Your task to perform on an android device: open app "Messenger Lite" Image 0: 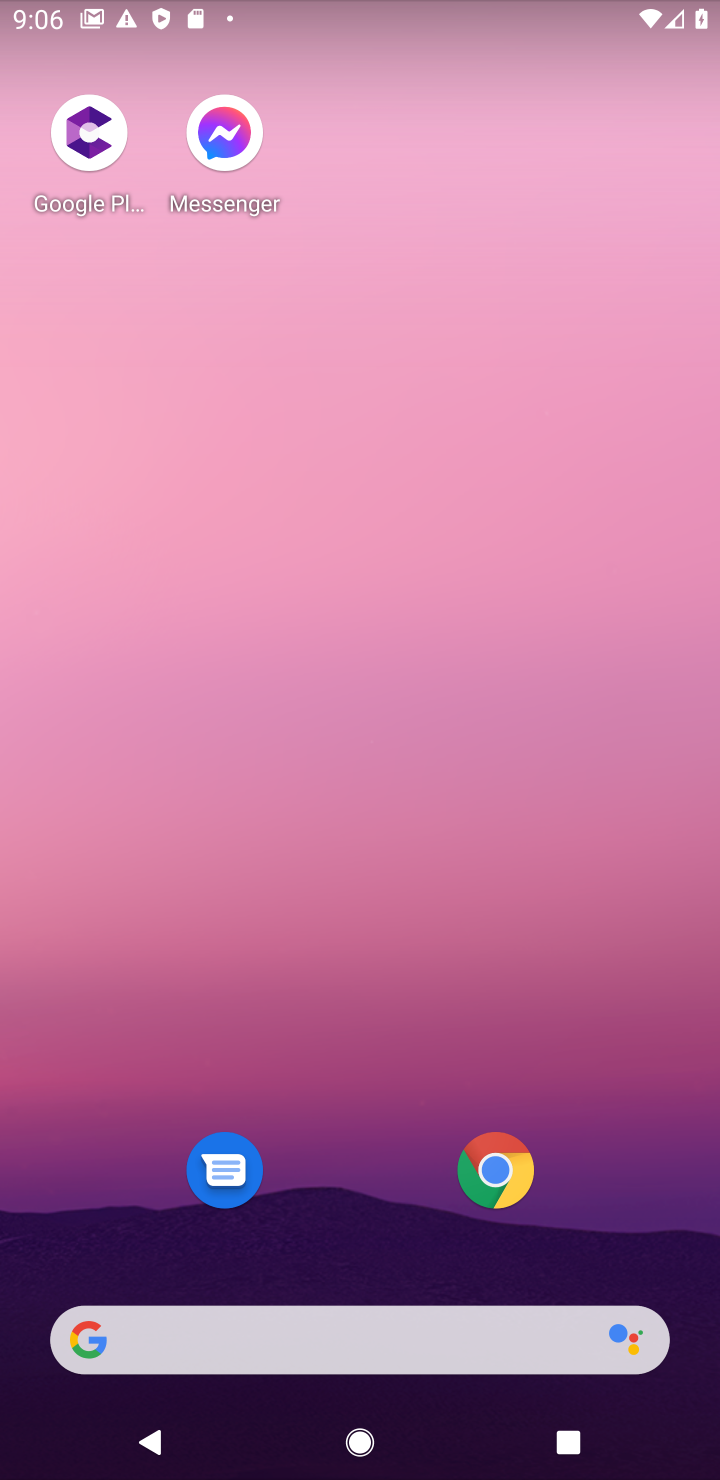
Step 0: click (372, 604)
Your task to perform on an android device: open app "Messenger Lite" Image 1: 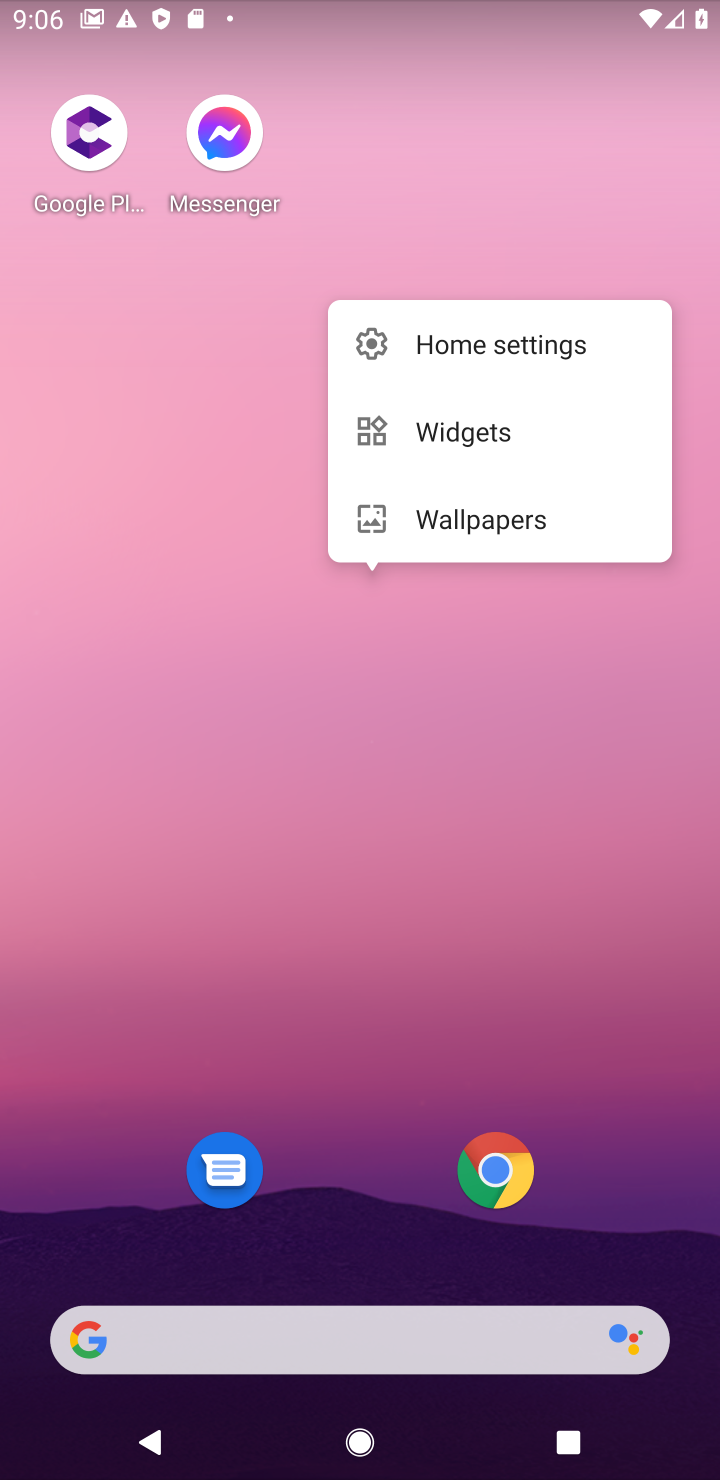
Step 1: drag from (287, 372) to (214, 128)
Your task to perform on an android device: open app "Messenger Lite" Image 2: 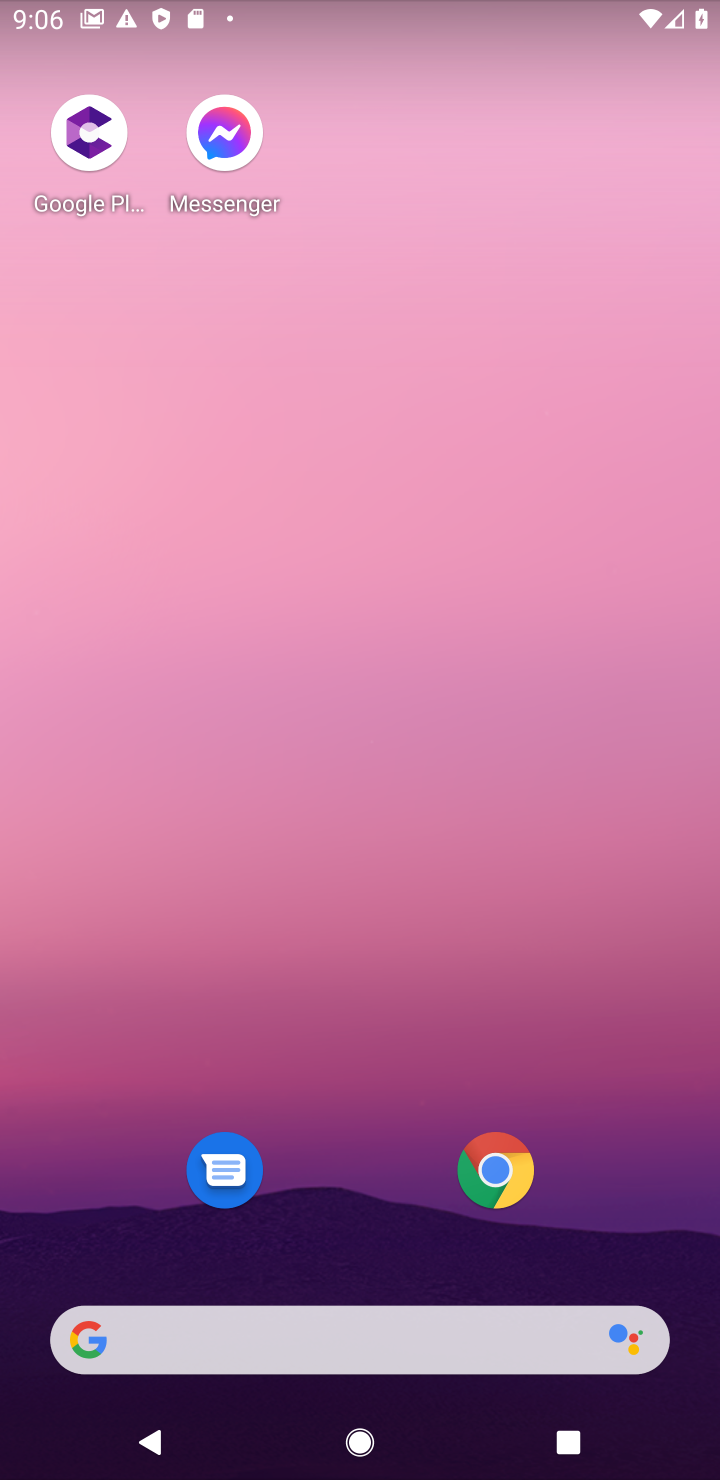
Step 2: drag from (199, 0) to (282, 272)
Your task to perform on an android device: open app "Messenger Lite" Image 3: 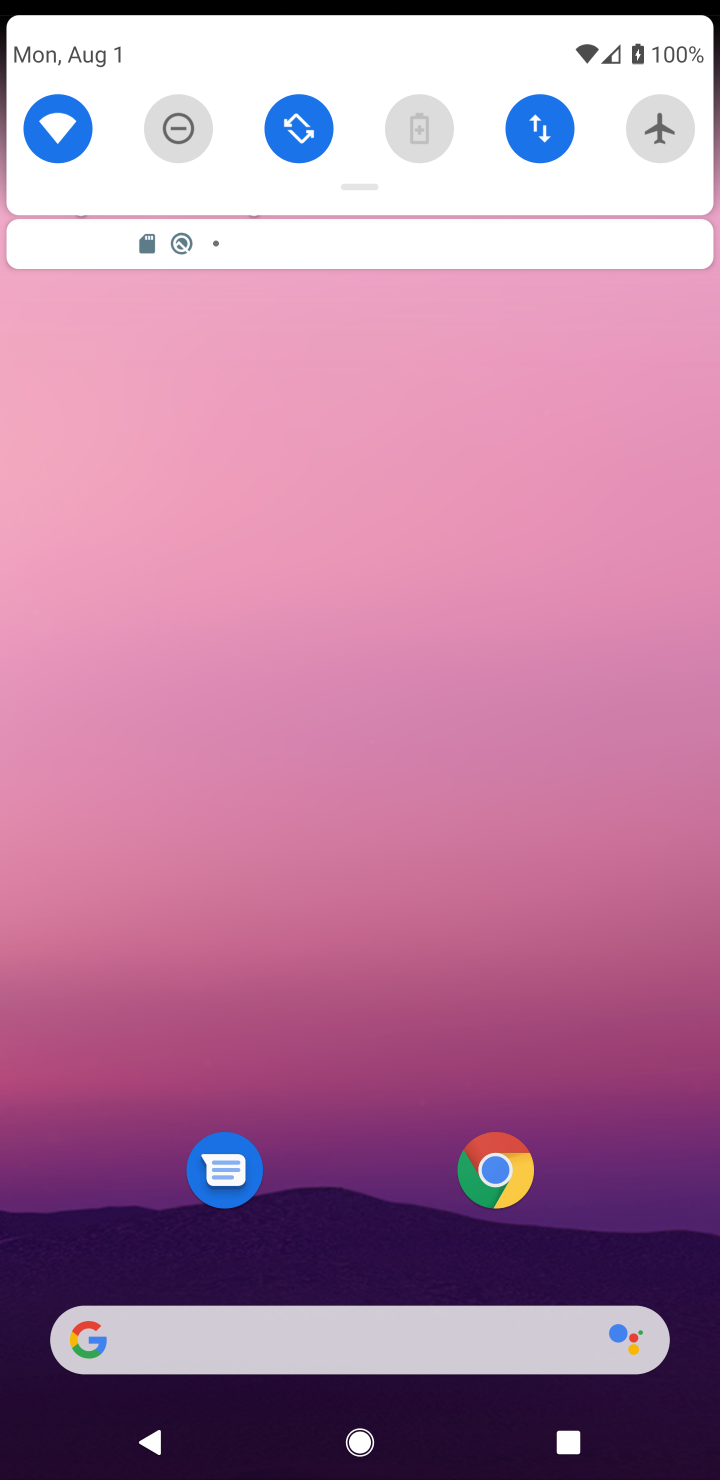
Step 3: drag from (359, 544) to (256, 475)
Your task to perform on an android device: open app "Messenger Lite" Image 4: 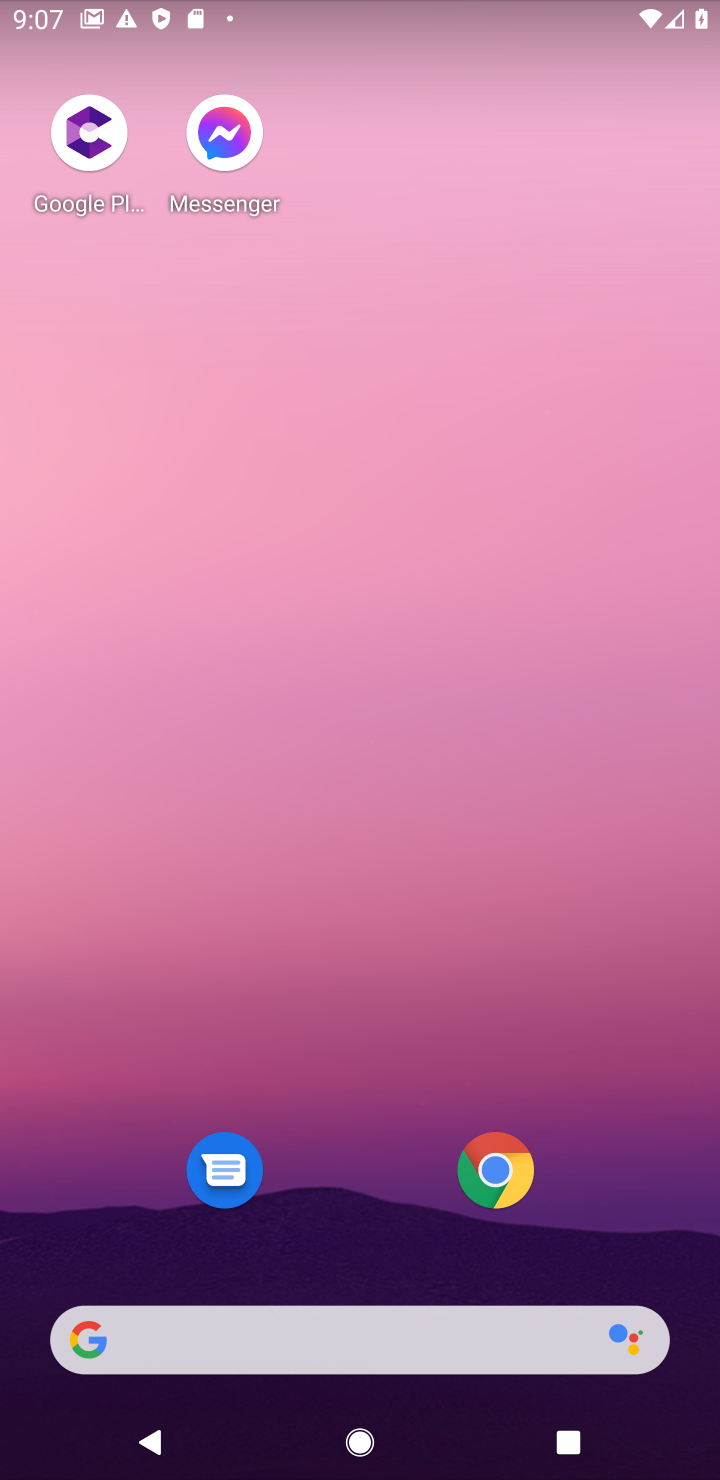
Step 4: drag from (314, 732) to (240, 215)
Your task to perform on an android device: open app "Messenger Lite" Image 5: 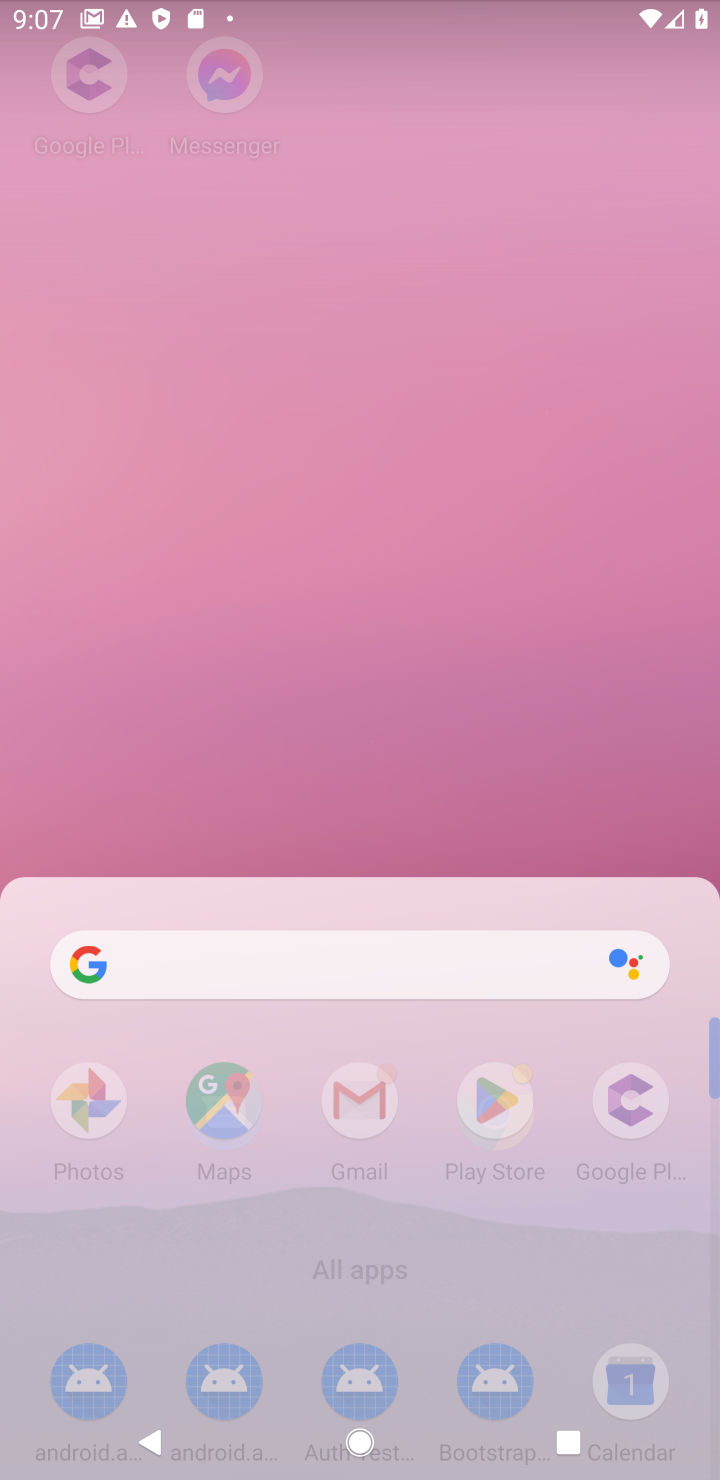
Step 5: drag from (207, 922) to (118, 307)
Your task to perform on an android device: open app "Messenger Lite" Image 6: 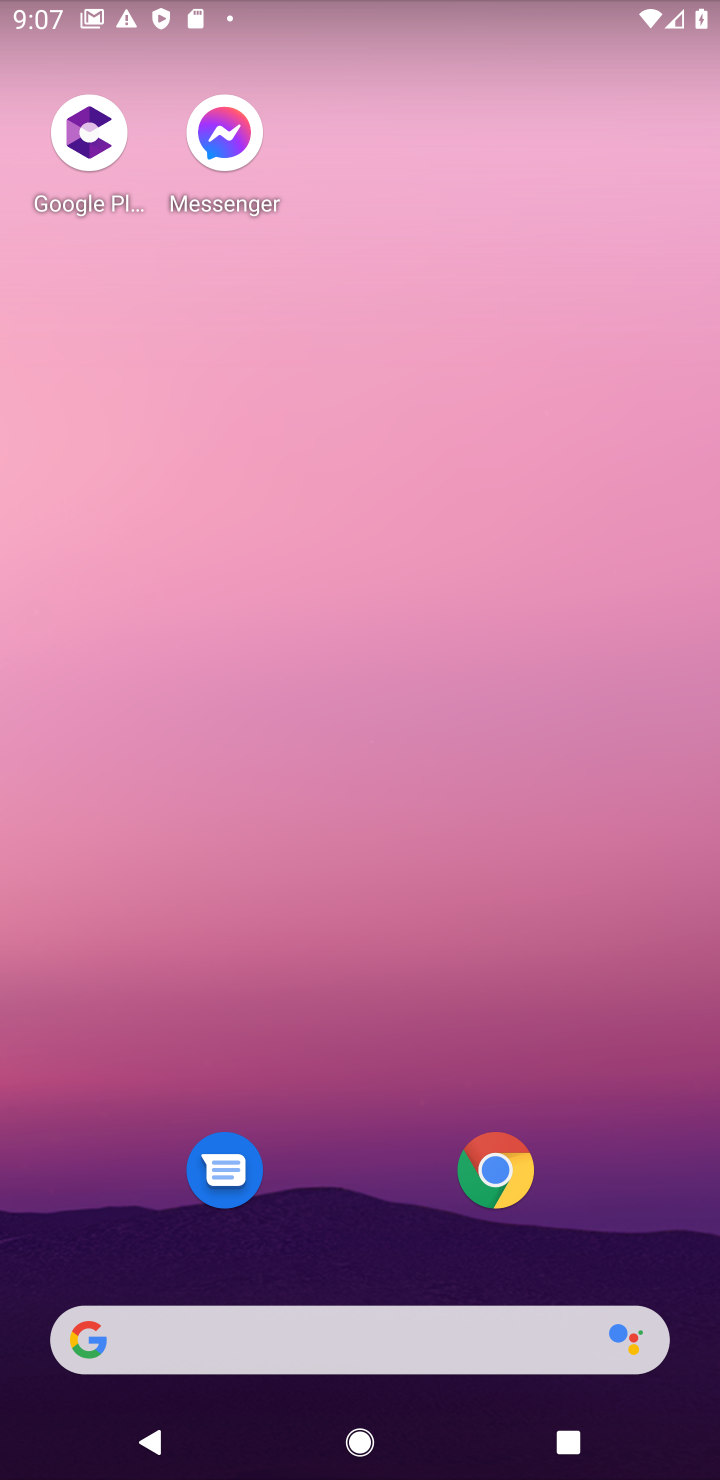
Step 6: drag from (165, 527) to (271, 136)
Your task to perform on an android device: open app "Messenger Lite" Image 7: 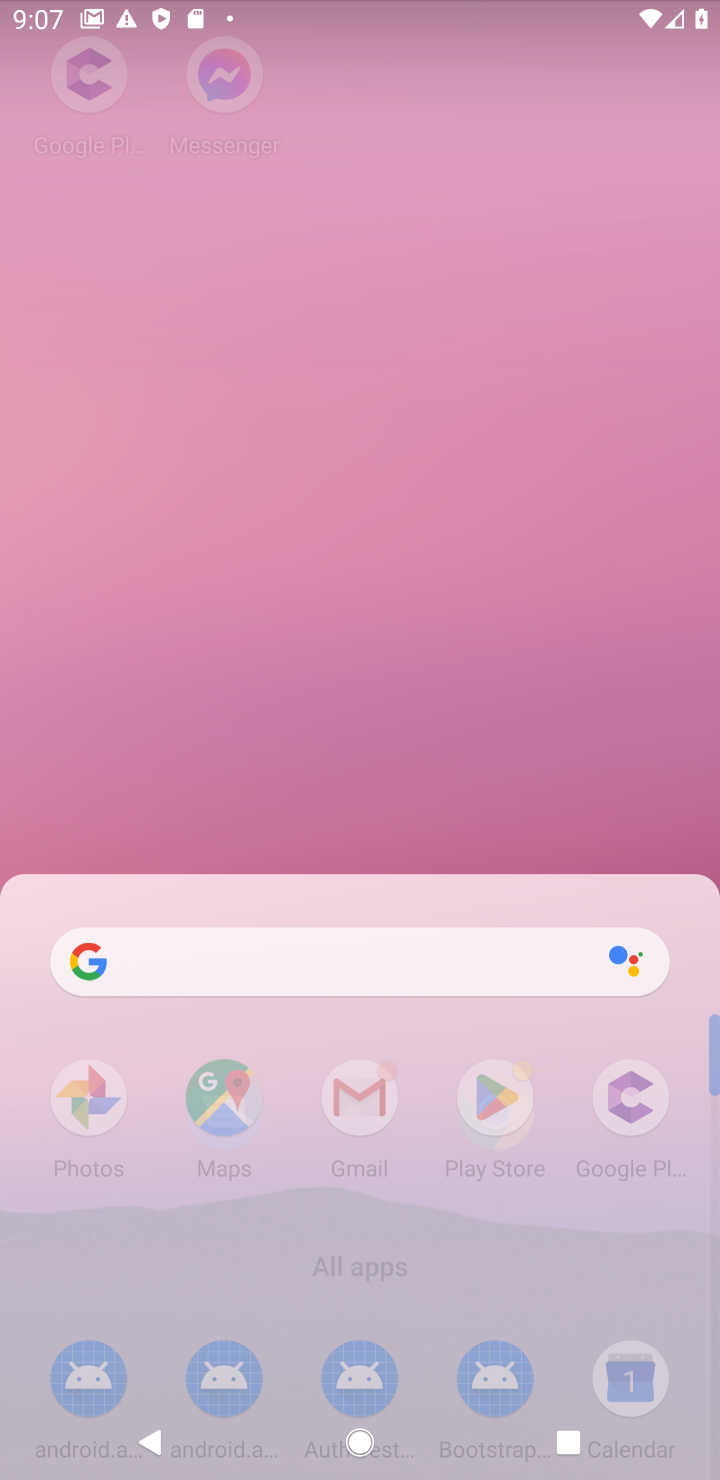
Step 7: click (230, 406)
Your task to perform on an android device: open app "Messenger Lite" Image 8: 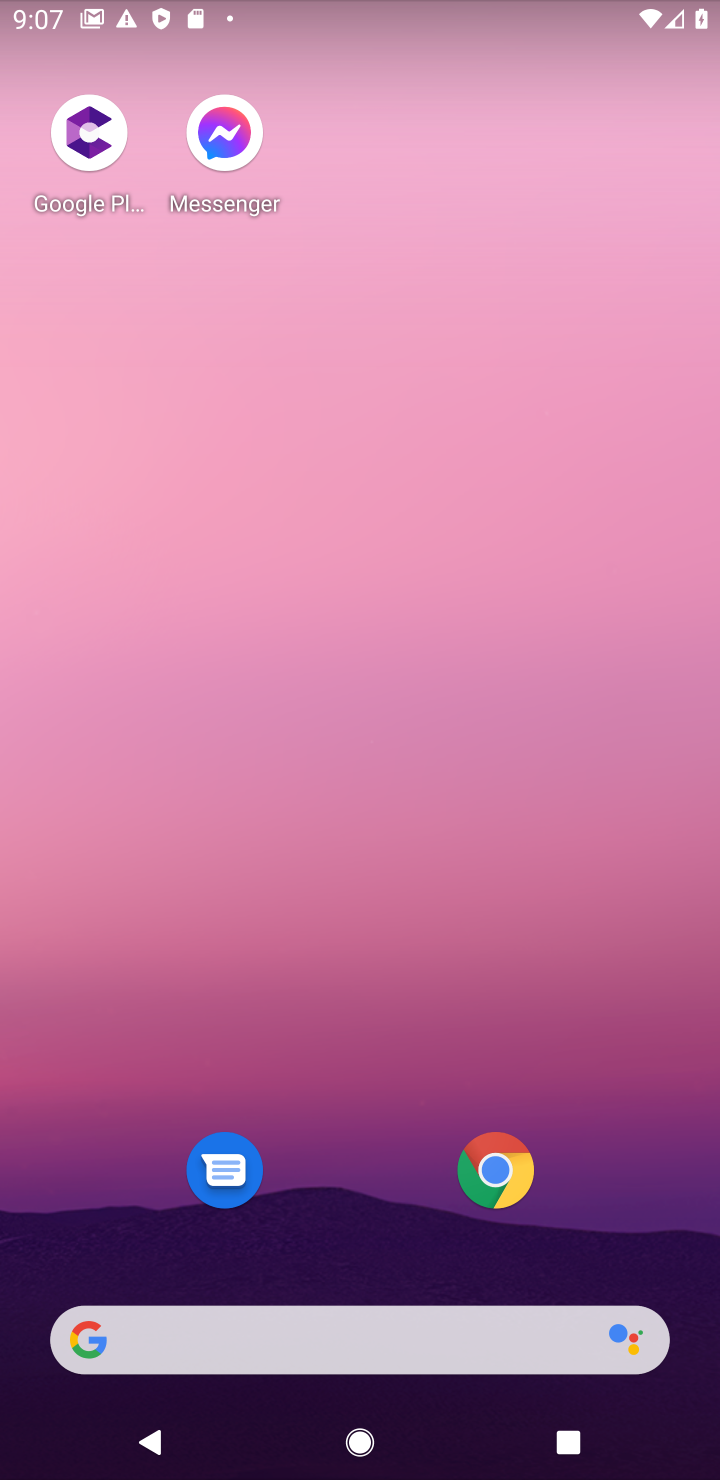
Step 8: click (255, 439)
Your task to perform on an android device: open app "Messenger Lite" Image 9: 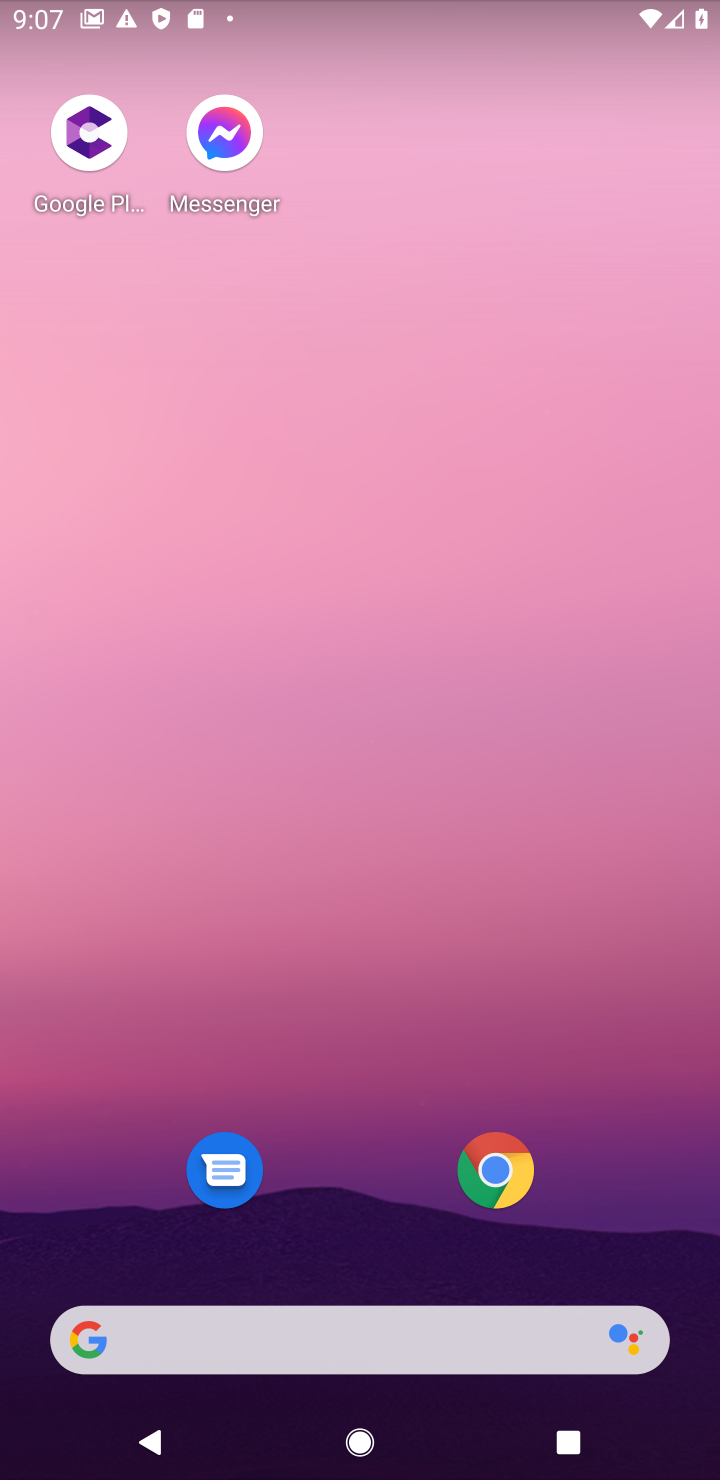
Step 9: click (278, 368)
Your task to perform on an android device: open app "Messenger Lite" Image 10: 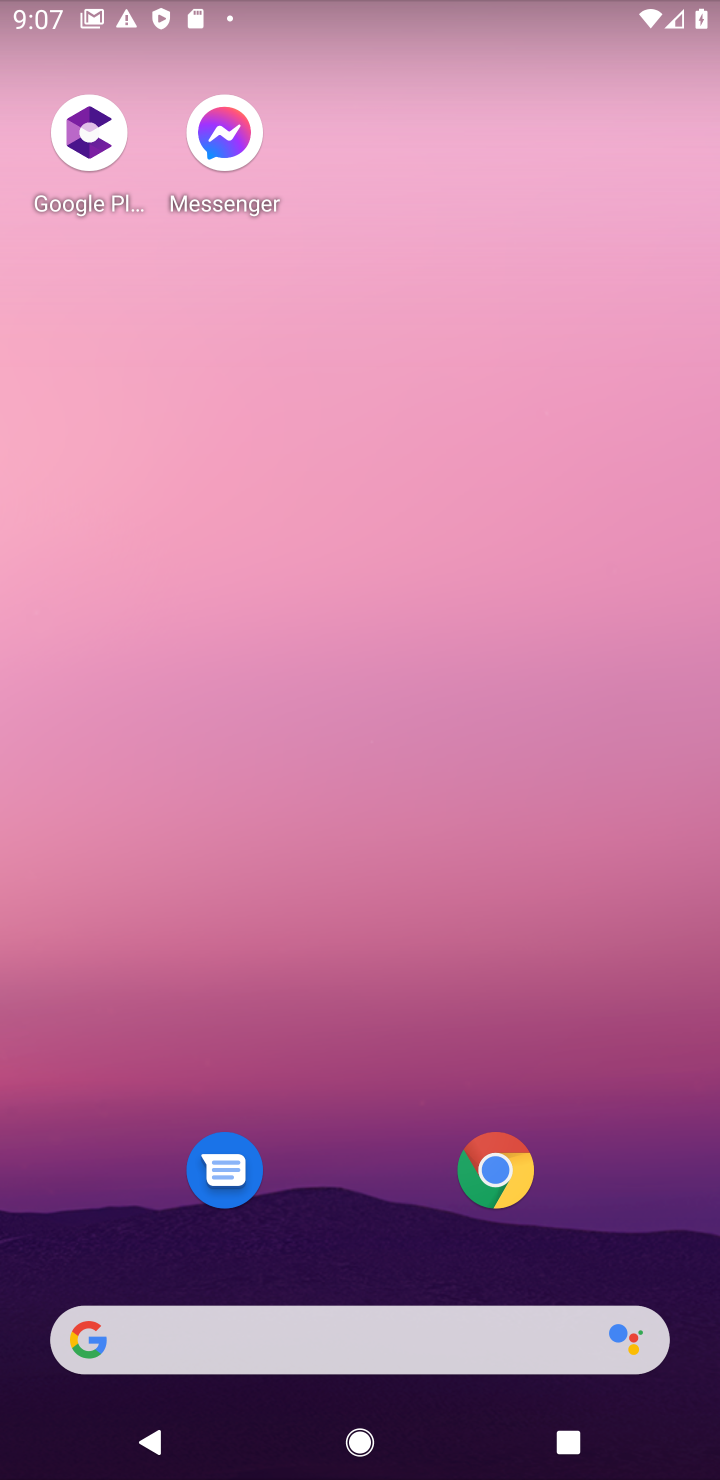
Step 10: drag from (397, 615) to (304, 209)
Your task to perform on an android device: open app "Messenger Lite" Image 11: 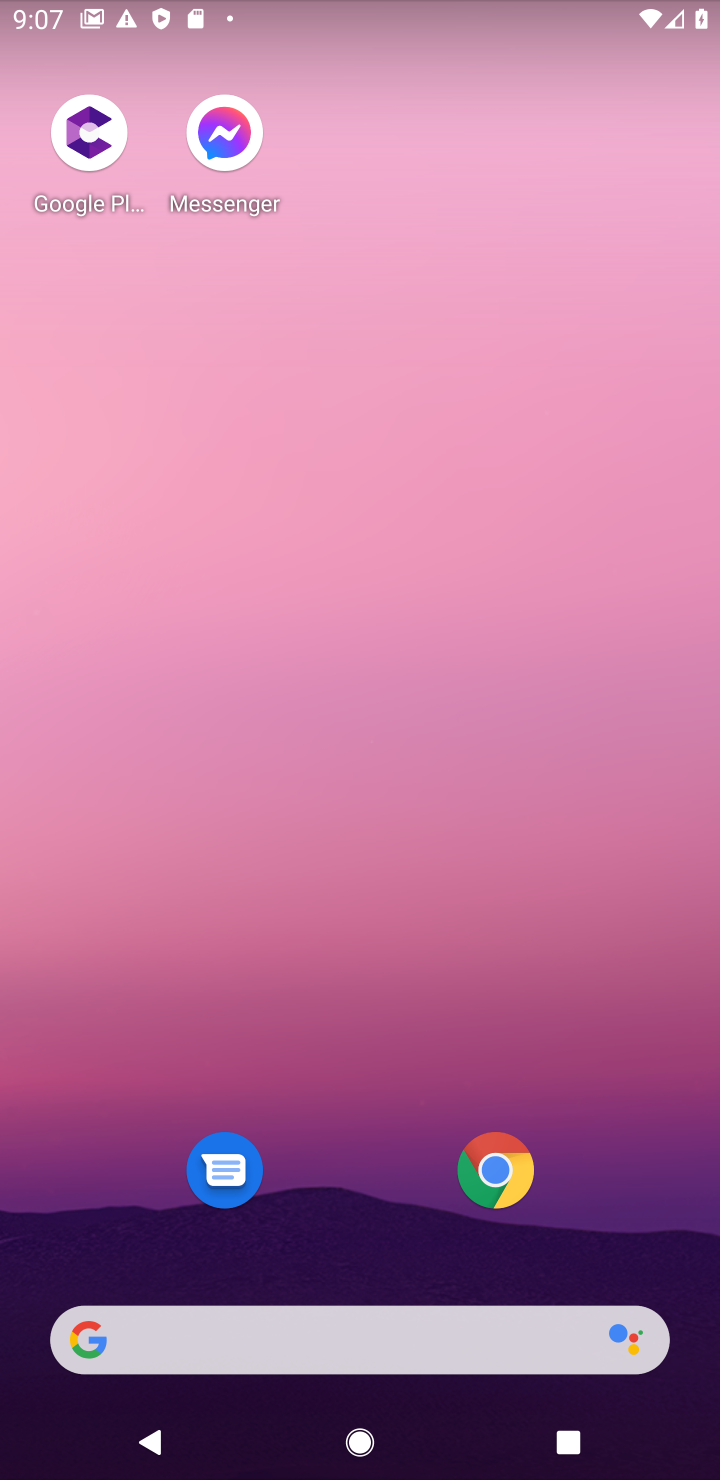
Step 11: drag from (342, 858) to (148, 108)
Your task to perform on an android device: open app "Messenger Lite" Image 12: 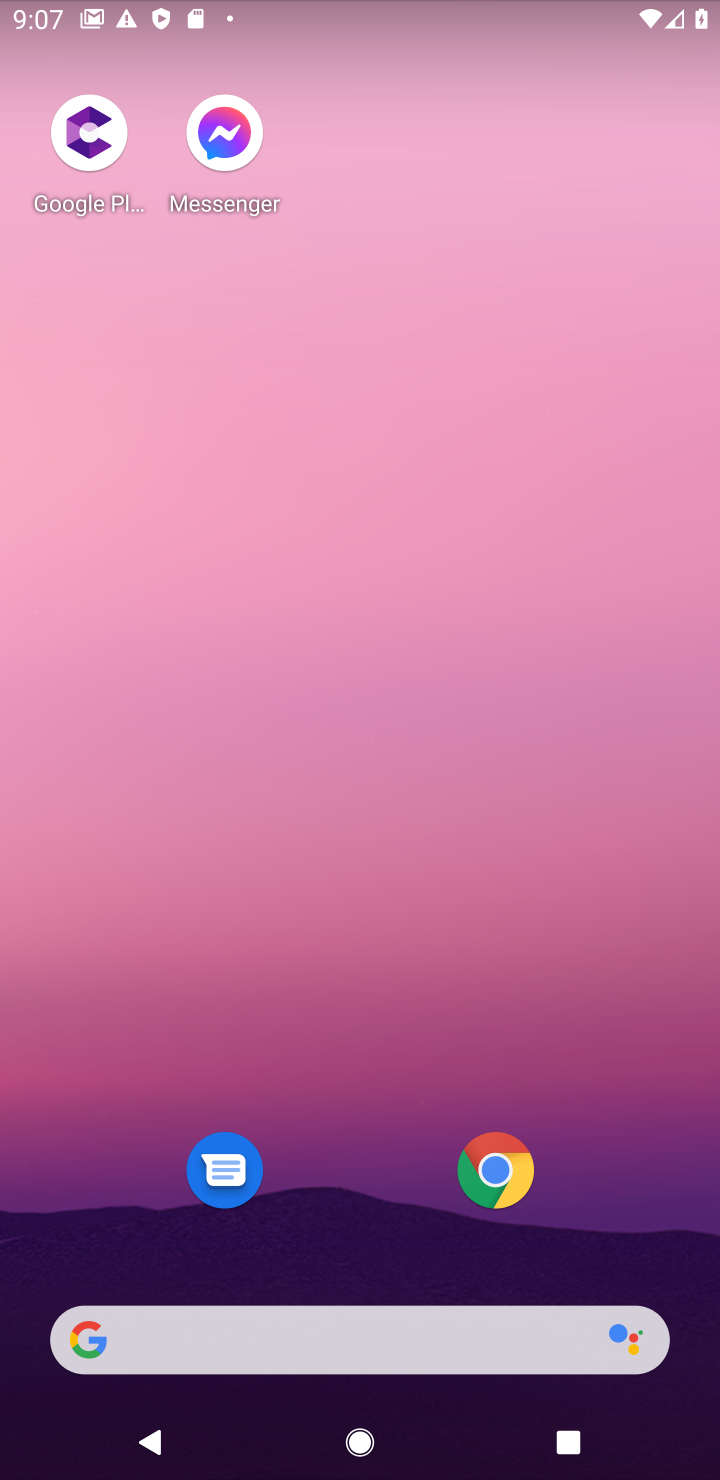
Step 12: drag from (347, 1079) to (204, 31)
Your task to perform on an android device: open app "Messenger Lite" Image 13: 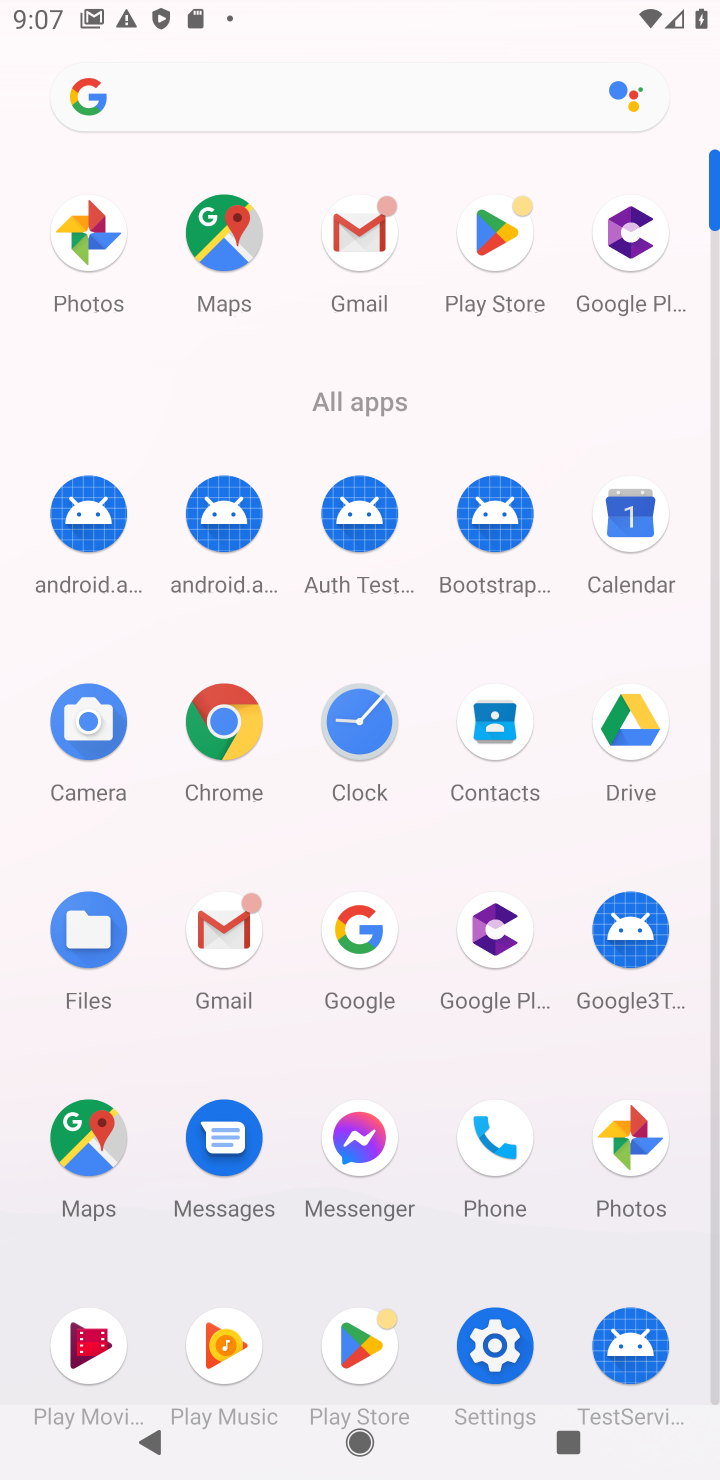
Step 13: click (501, 216)
Your task to perform on an android device: open app "Messenger Lite" Image 14: 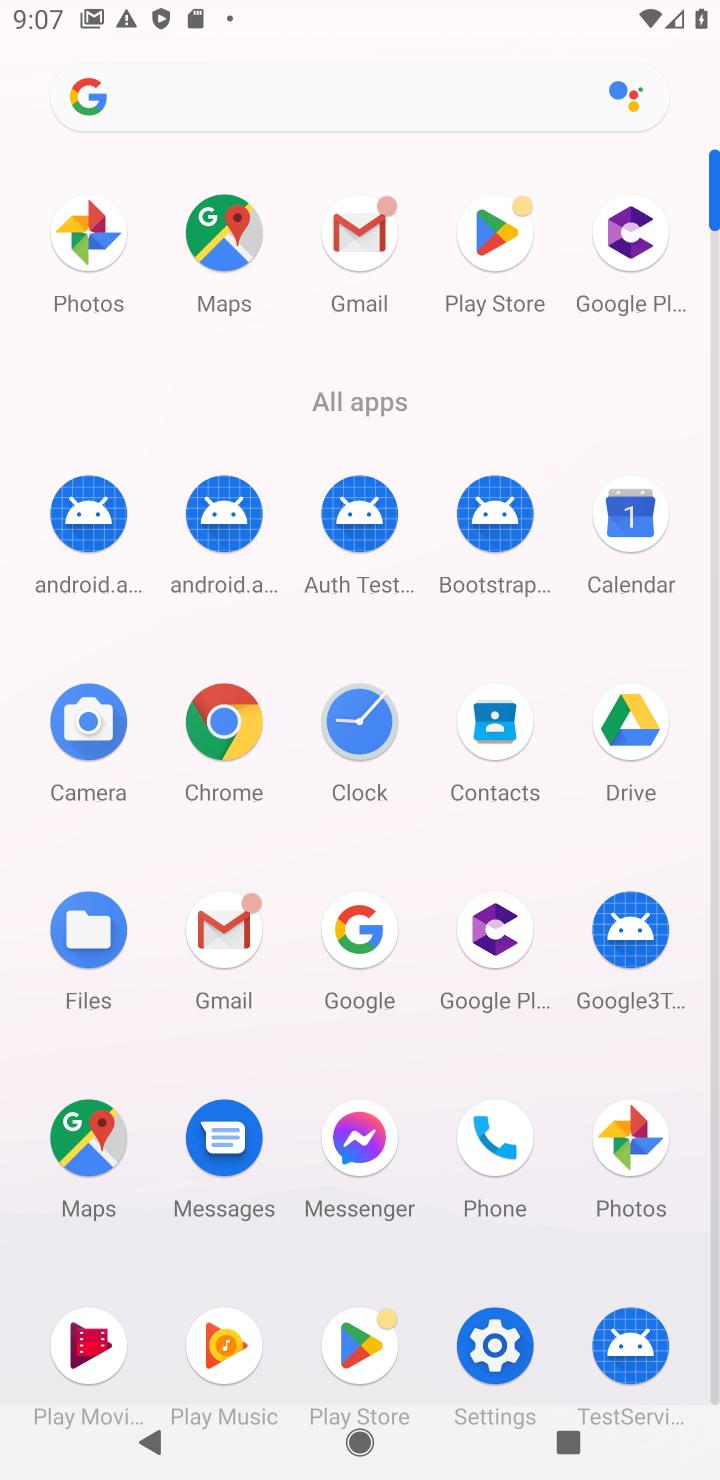
Step 14: click (500, 226)
Your task to perform on an android device: open app "Messenger Lite" Image 15: 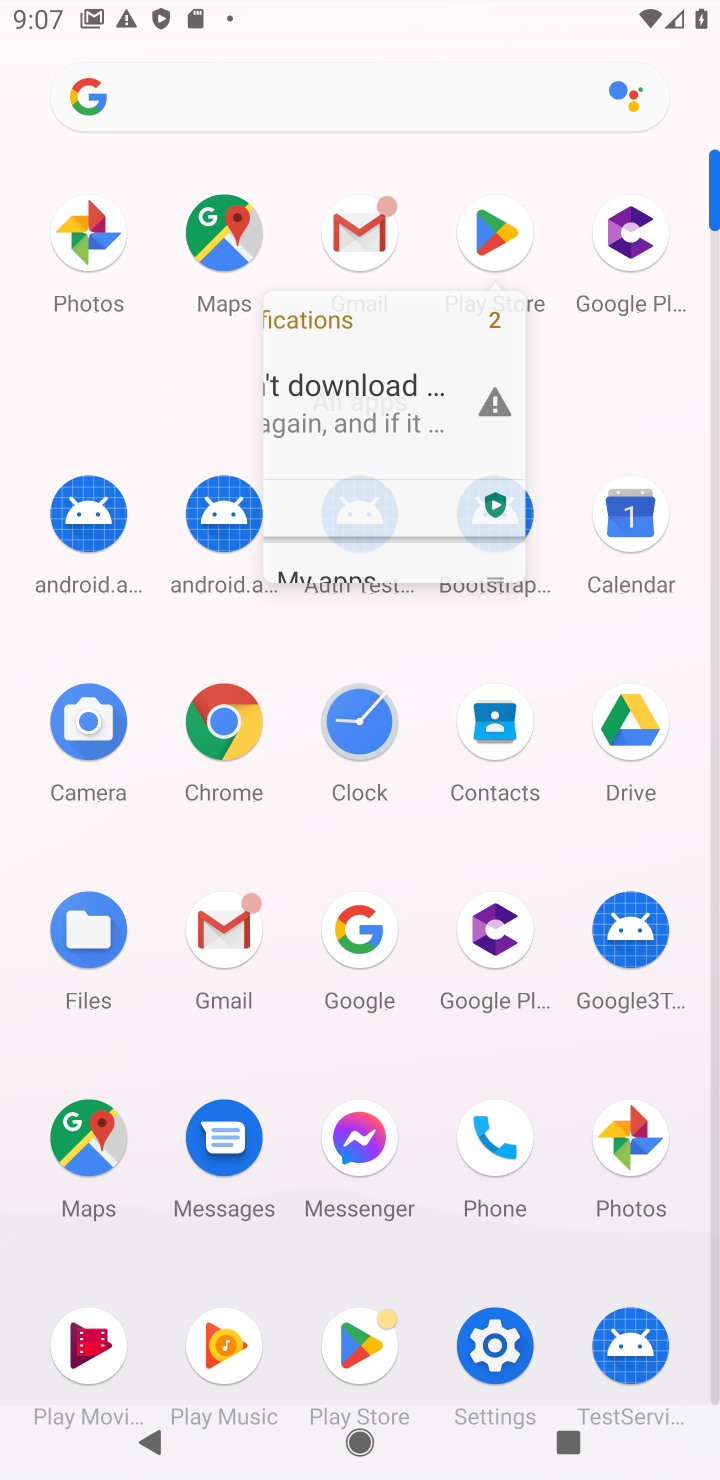
Step 15: click (504, 233)
Your task to perform on an android device: open app "Messenger Lite" Image 16: 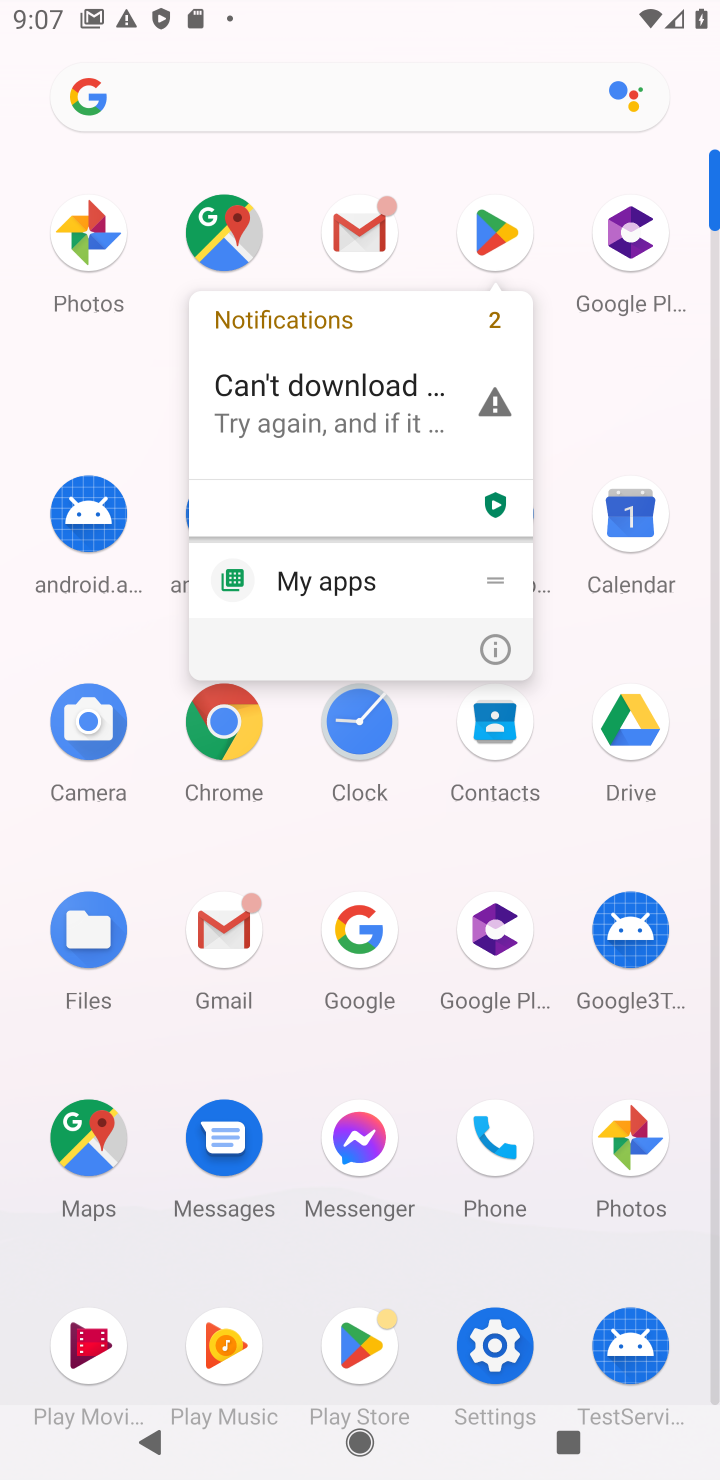
Step 16: click (504, 233)
Your task to perform on an android device: open app "Messenger Lite" Image 17: 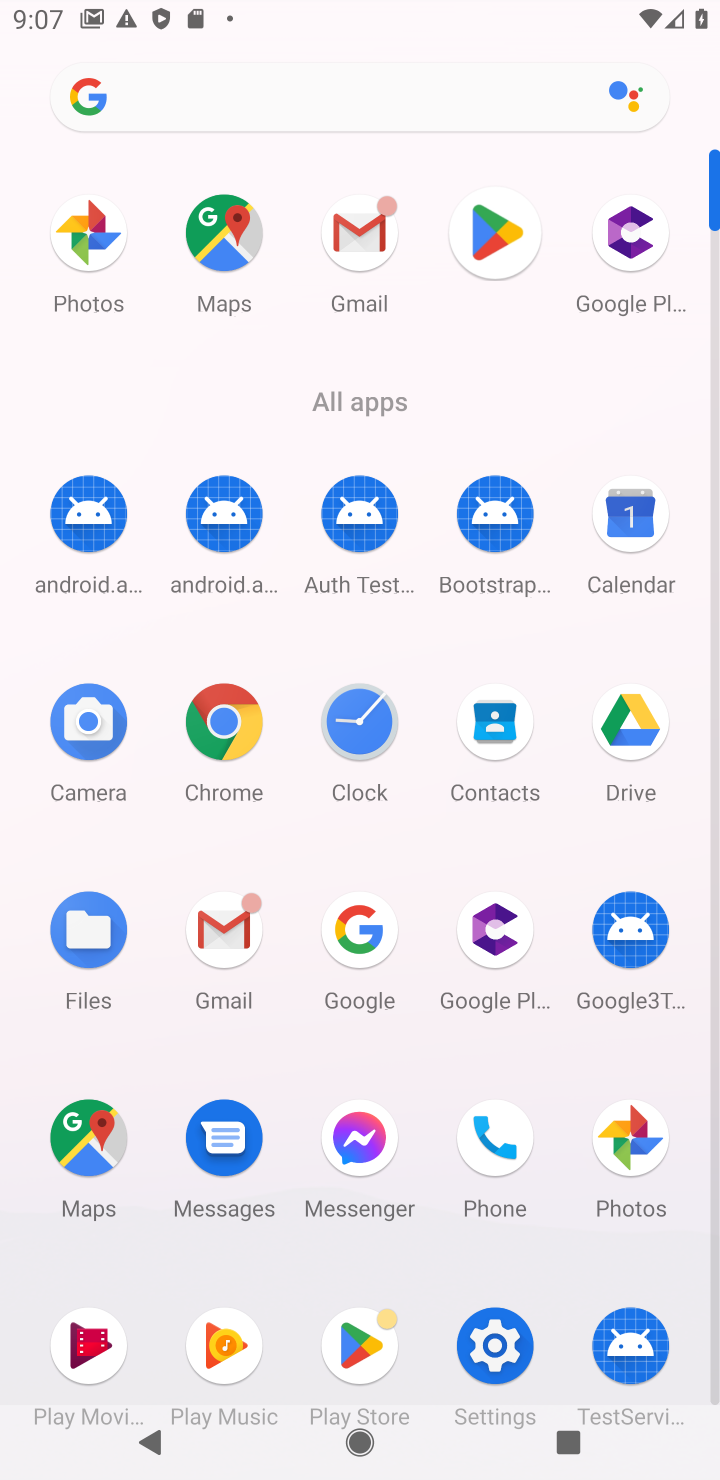
Step 17: click (504, 233)
Your task to perform on an android device: open app "Messenger Lite" Image 18: 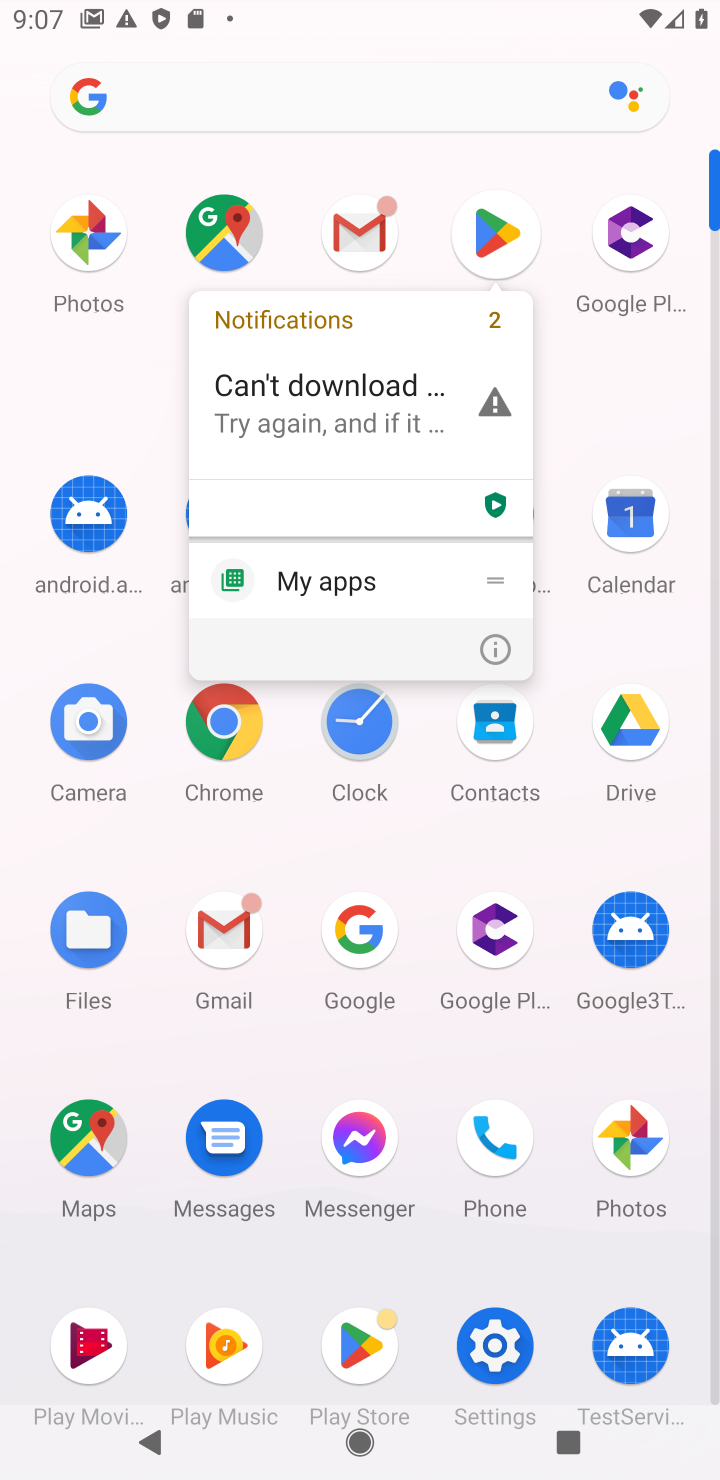
Step 18: click (518, 238)
Your task to perform on an android device: open app "Messenger Lite" Image 19: 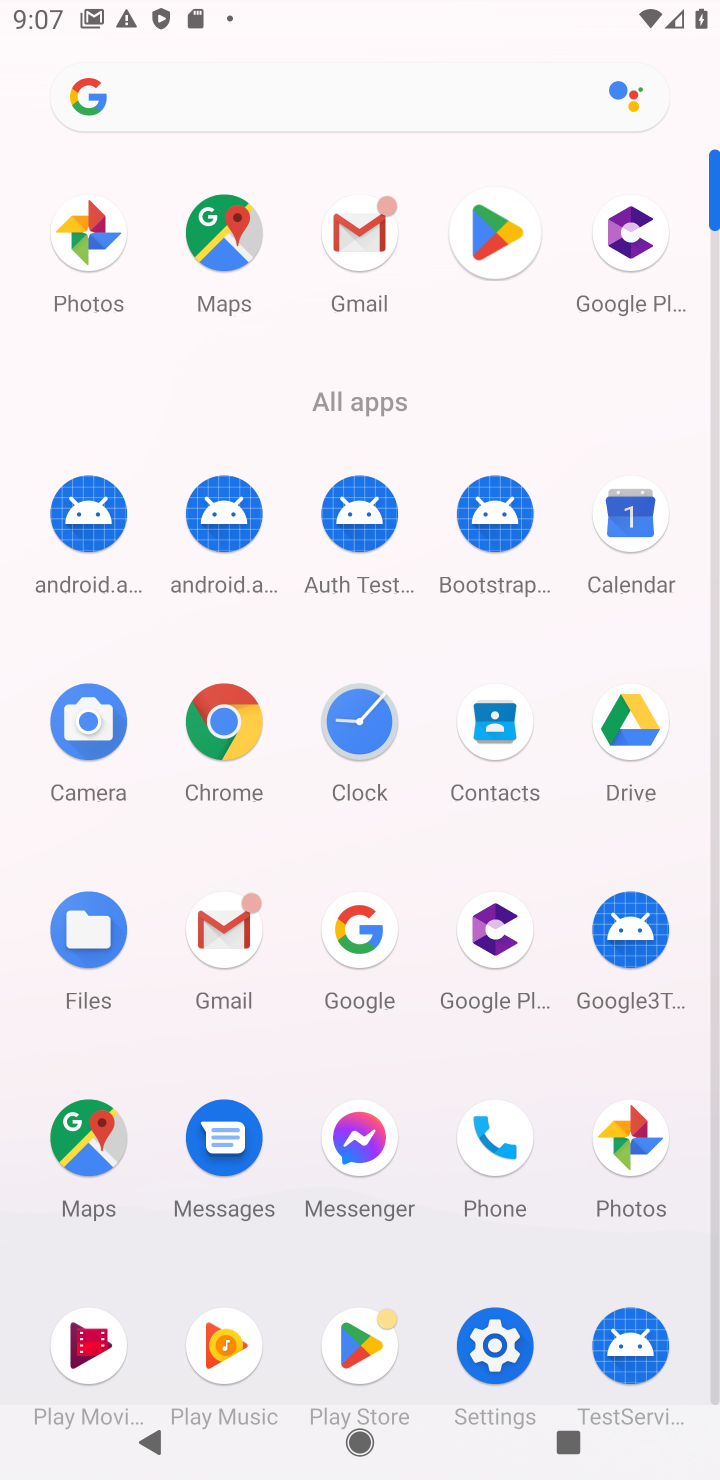
Step 19: click (500, 225)
Your task to perform on an android device: open app "Messenger Lite" Image 20: 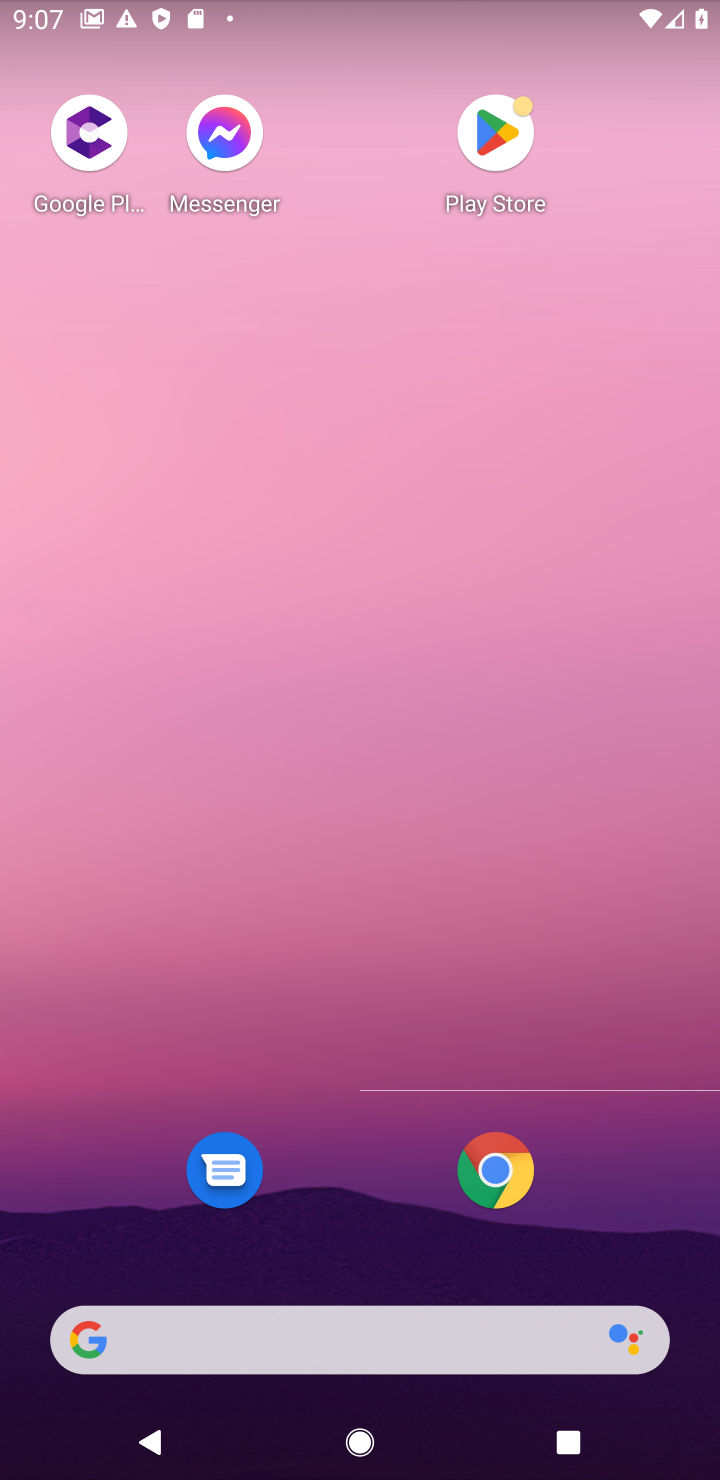
Step 20: click (476, 211)
Your task to perform on an android device: open app "Messenger Lite" Image 21: 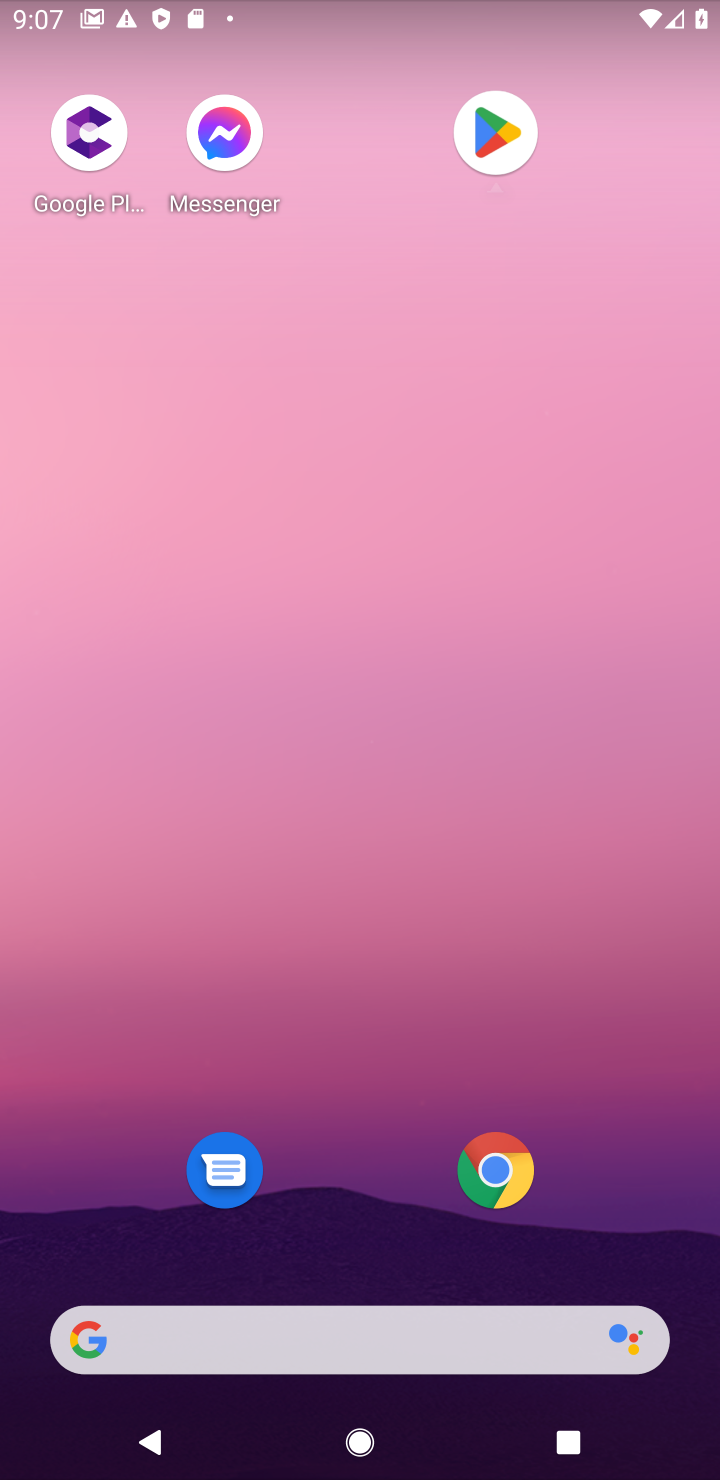
Step 21: click (489, 141)
Your task to perform on an android device: open app "Messenger Lite" Image 22: 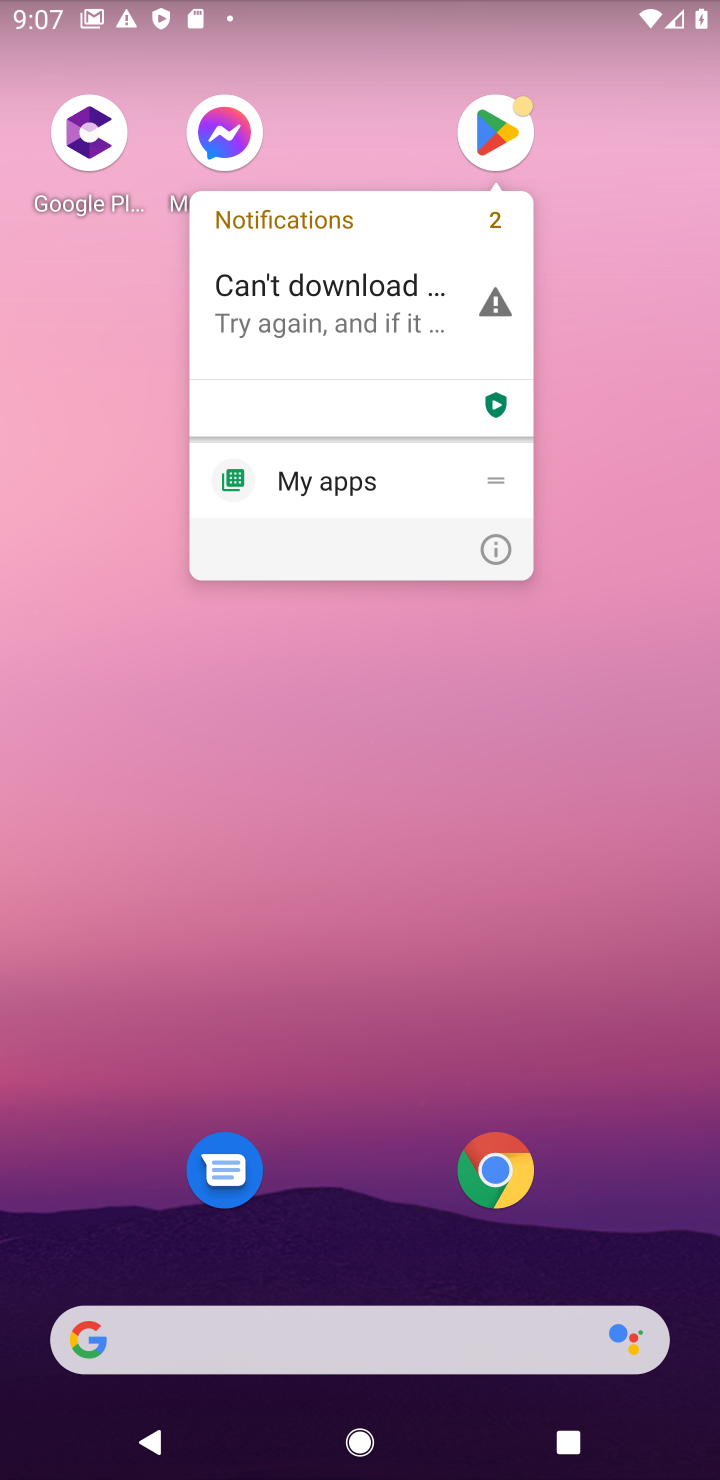
Step 22: click (494, 136)
Your task to perform on an android device: open app "Messenger Lite" Image 23: 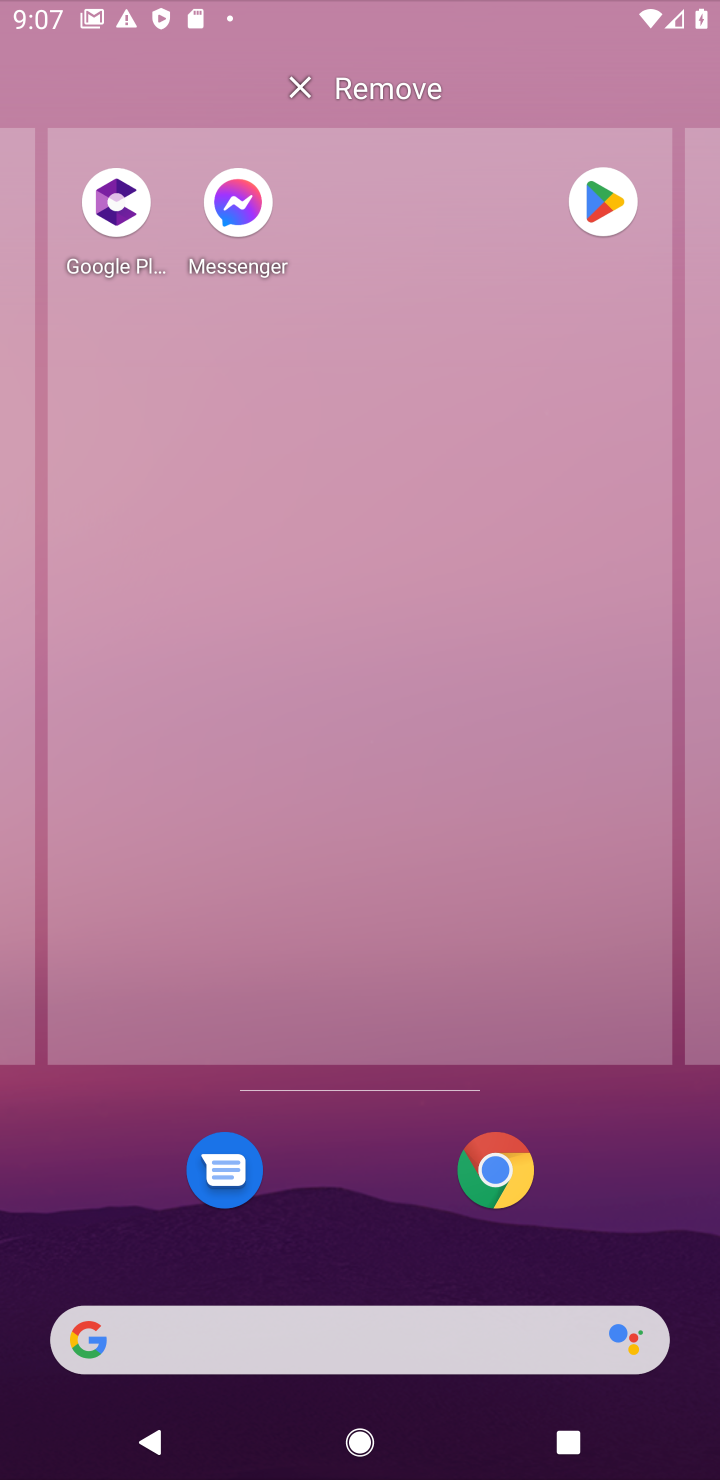
Step 23: drag from (460, 1146) to (357, 10)
Your task to perform on an android device: open app "Messenger Lite" Image 24: 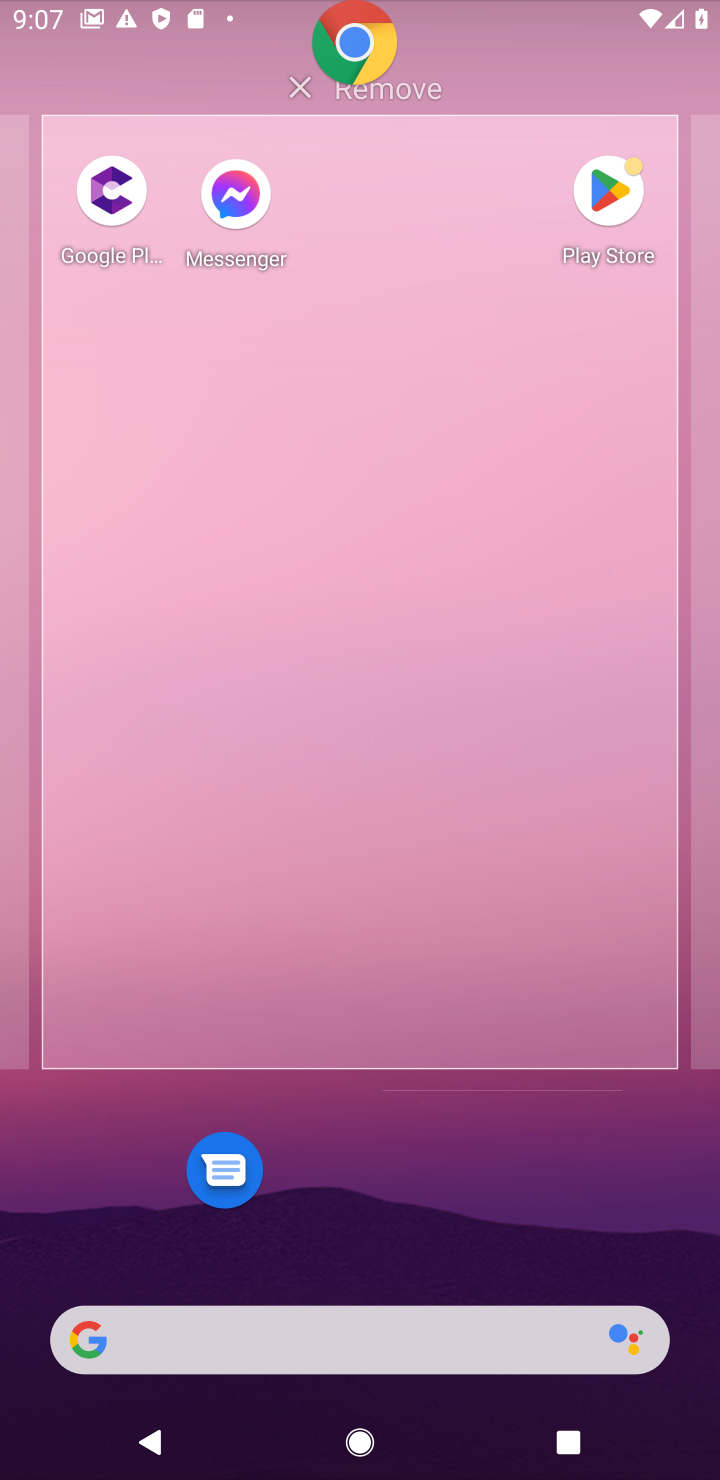
Step 24: drag from (272, 2) to (196, 24)
Your task to perform on an android device: open app "Messenger Lite" Image 25: 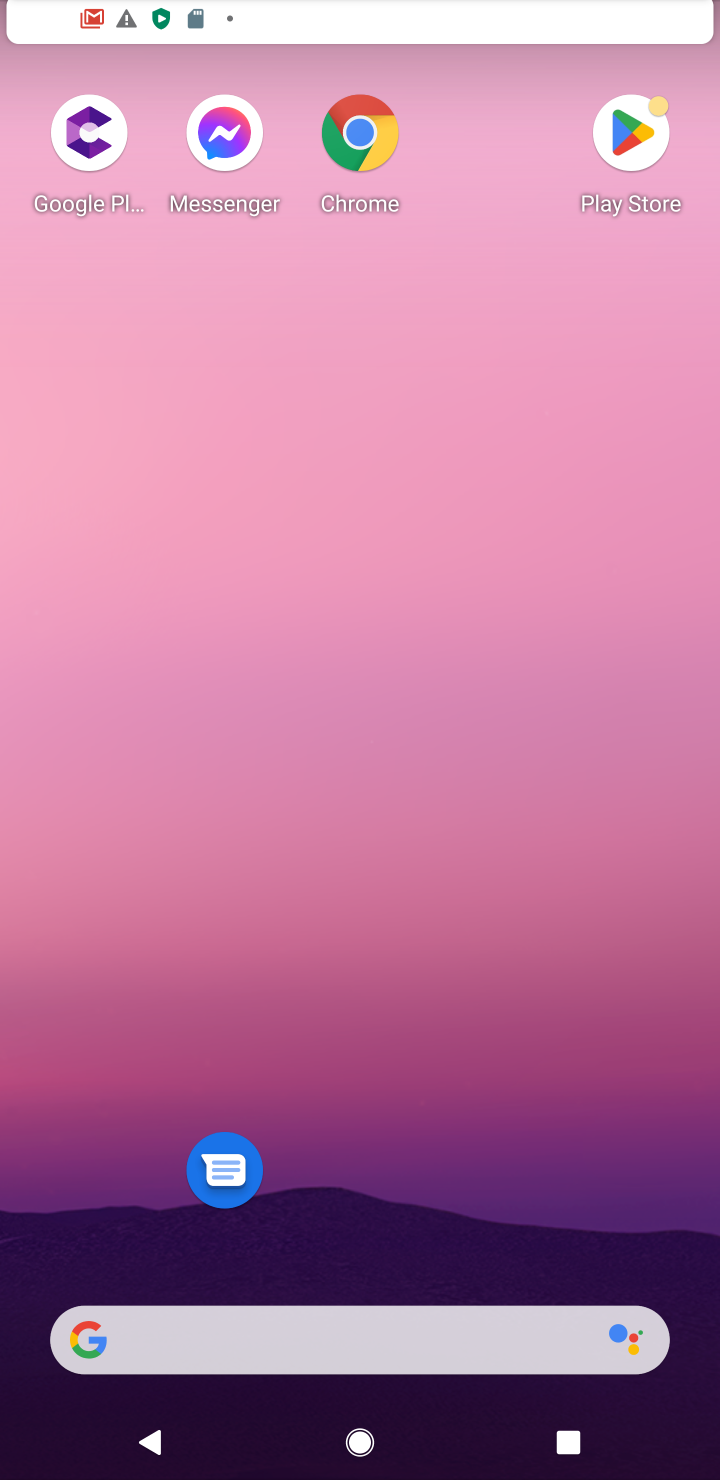
Step 25: drag from (461, 1215) to (266, 40)
Your task to perform on an android device: open app "Messenger Lite" Image 26: 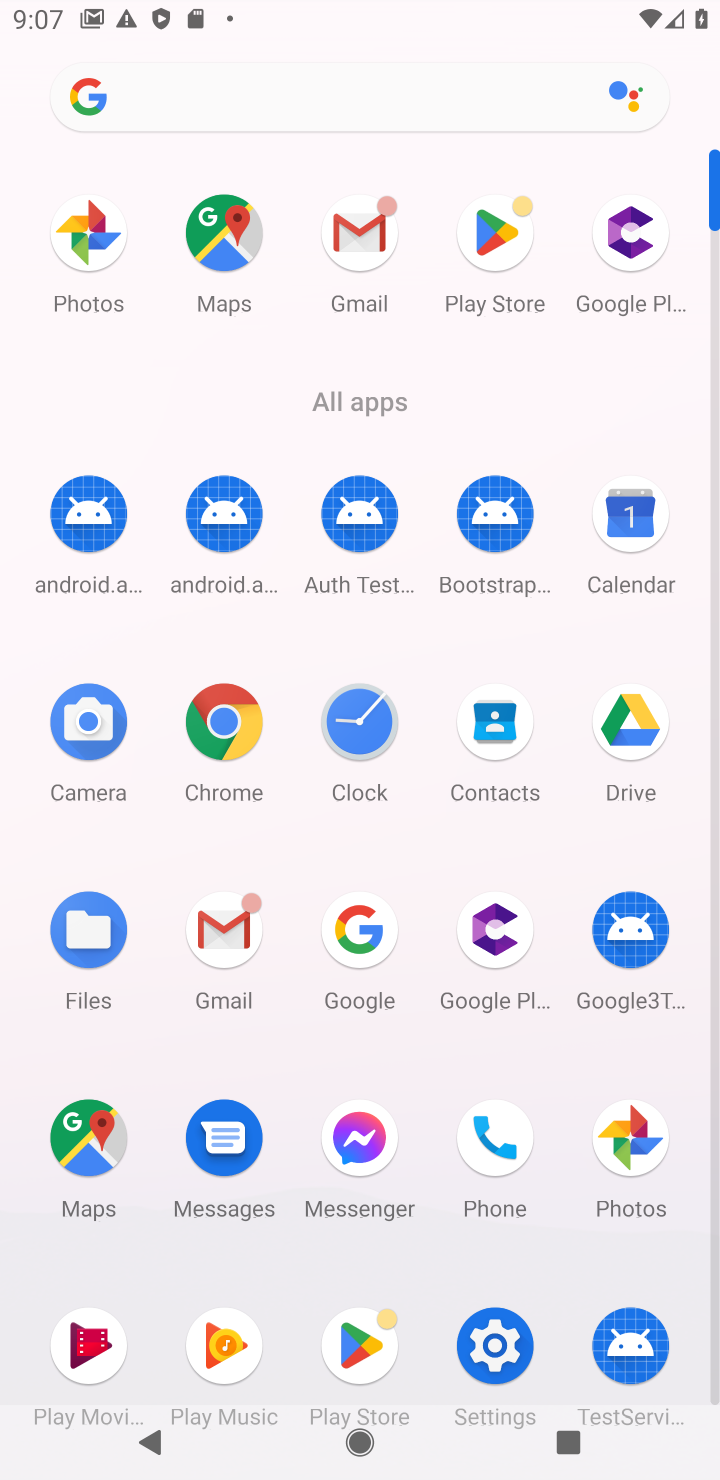
Step 26: click (496, 228)
Your task to perform on an android device: open app "Messenger Lite" Image 27: 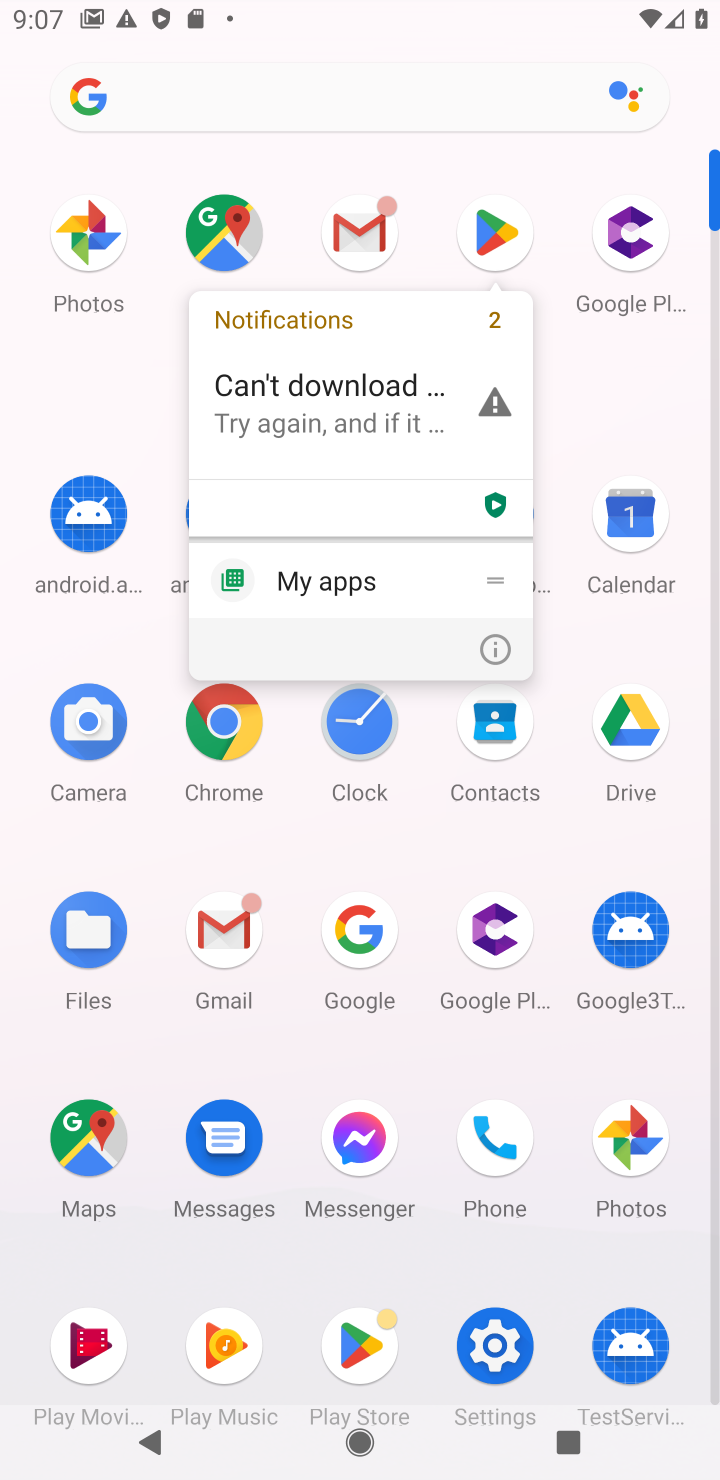
Step 27: click (473, 238)
Your task to perform on an android device: open app "Messenger Lite" Image 28: 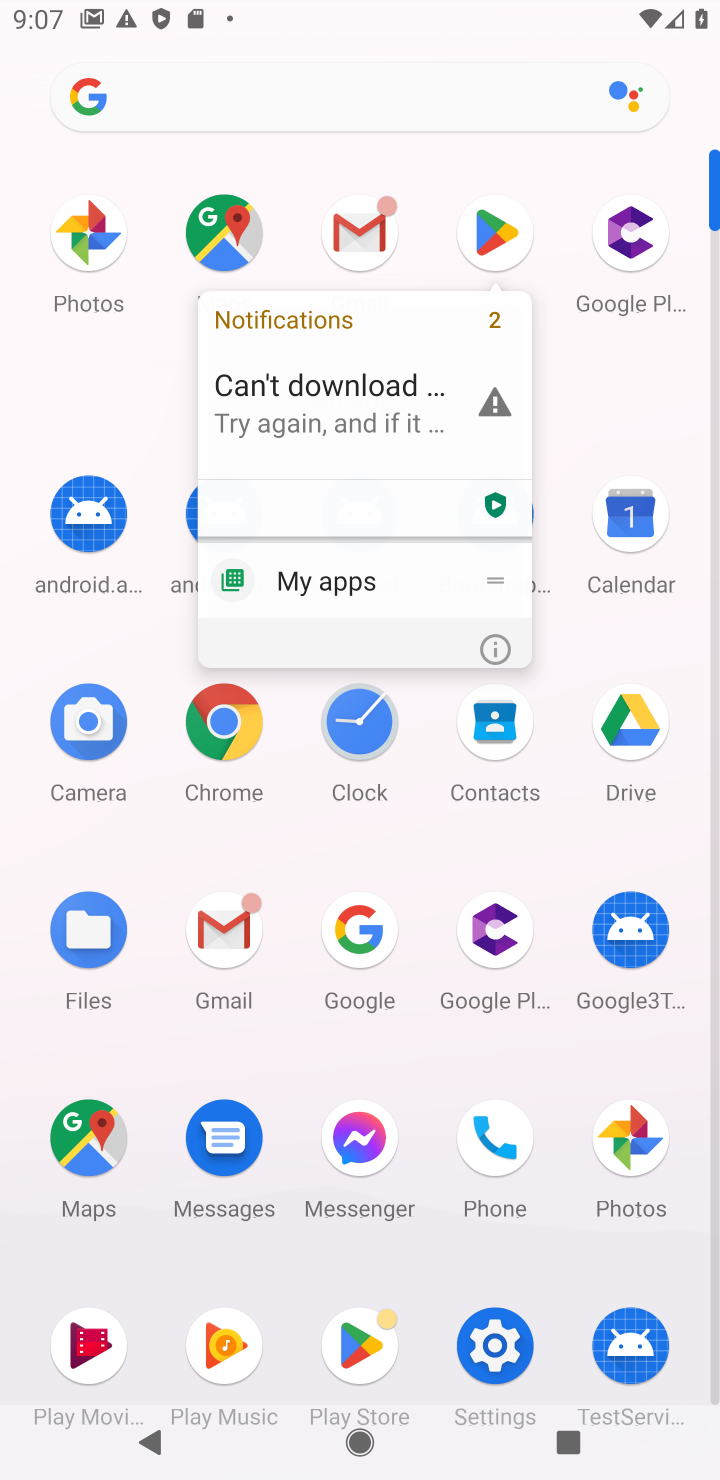
Step 28: click (497, 236)
Your task to perform on an android device: open app "Messenger Lite" Image 29: 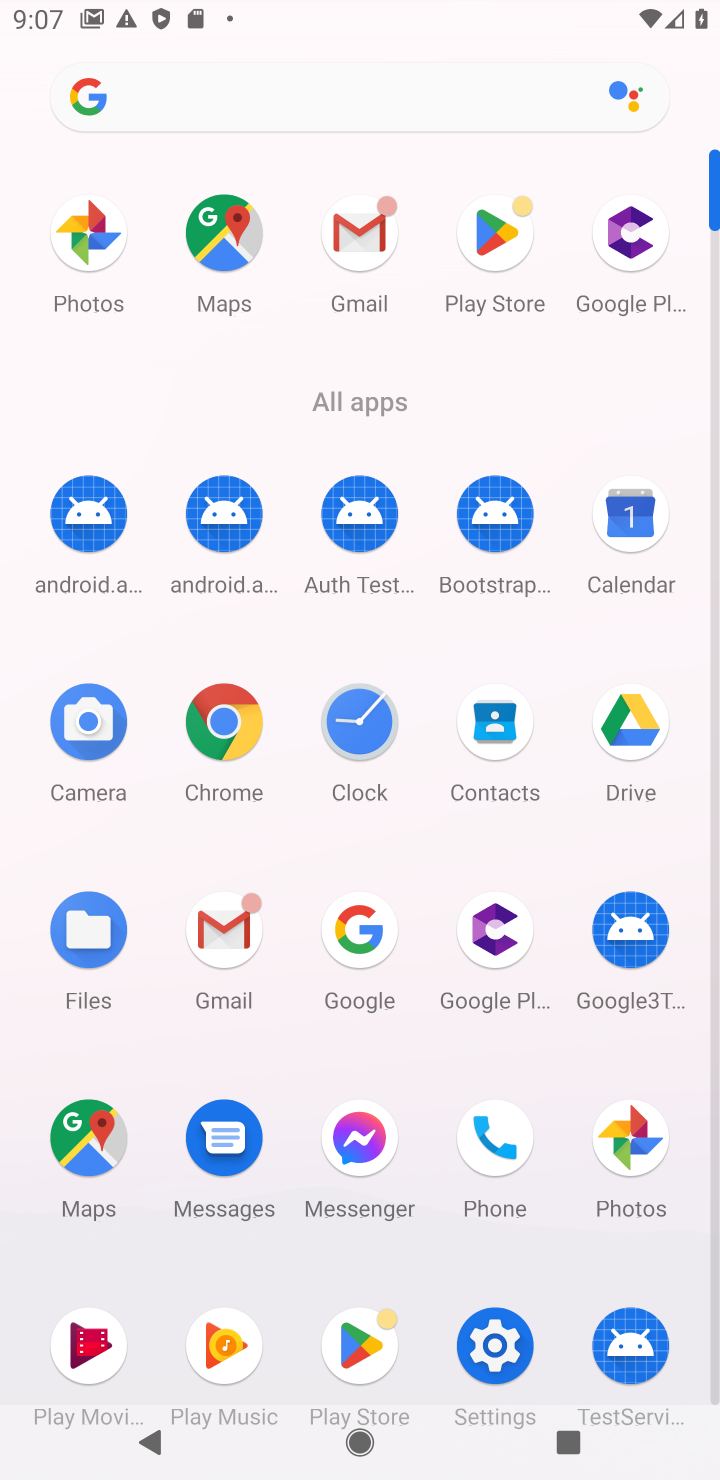
Step 29: click (484, 251)
Your task to perform on an android device: open app "Messenger Lite" Image 30: 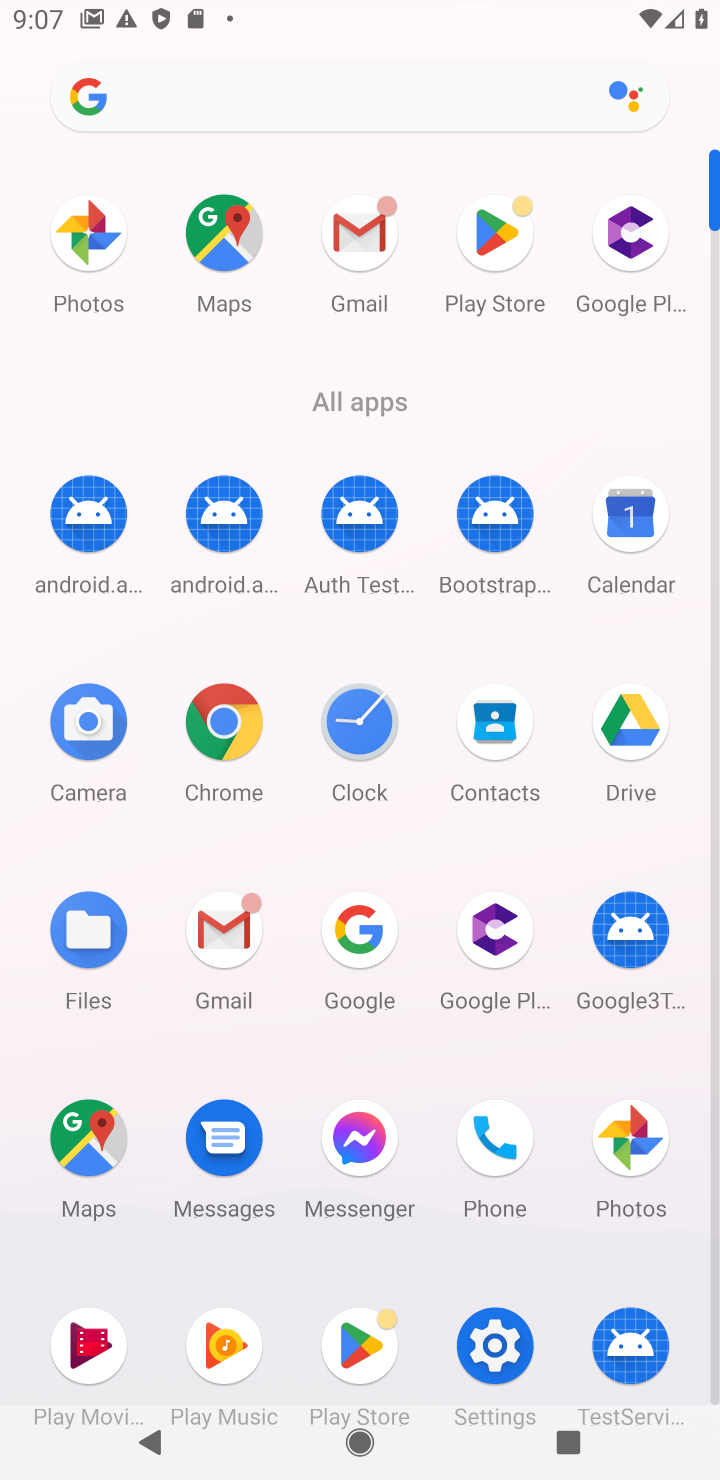
Step 30: click (490, 251)
Your task to perform on an android device: open app "Messenger Lite" Image 31: 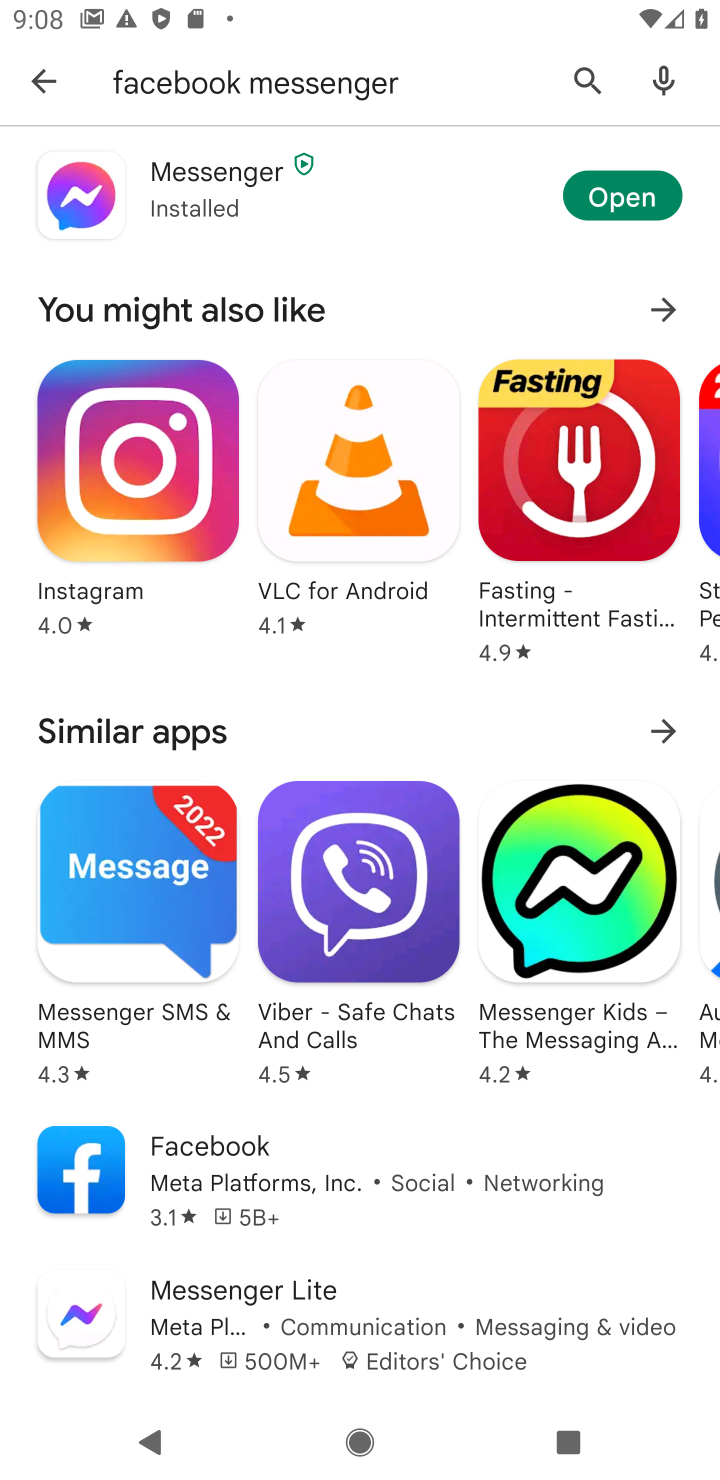
Step 31: click (636, 188)
Your task to perform on an android device: open app "Messenger Lite" Image 32: 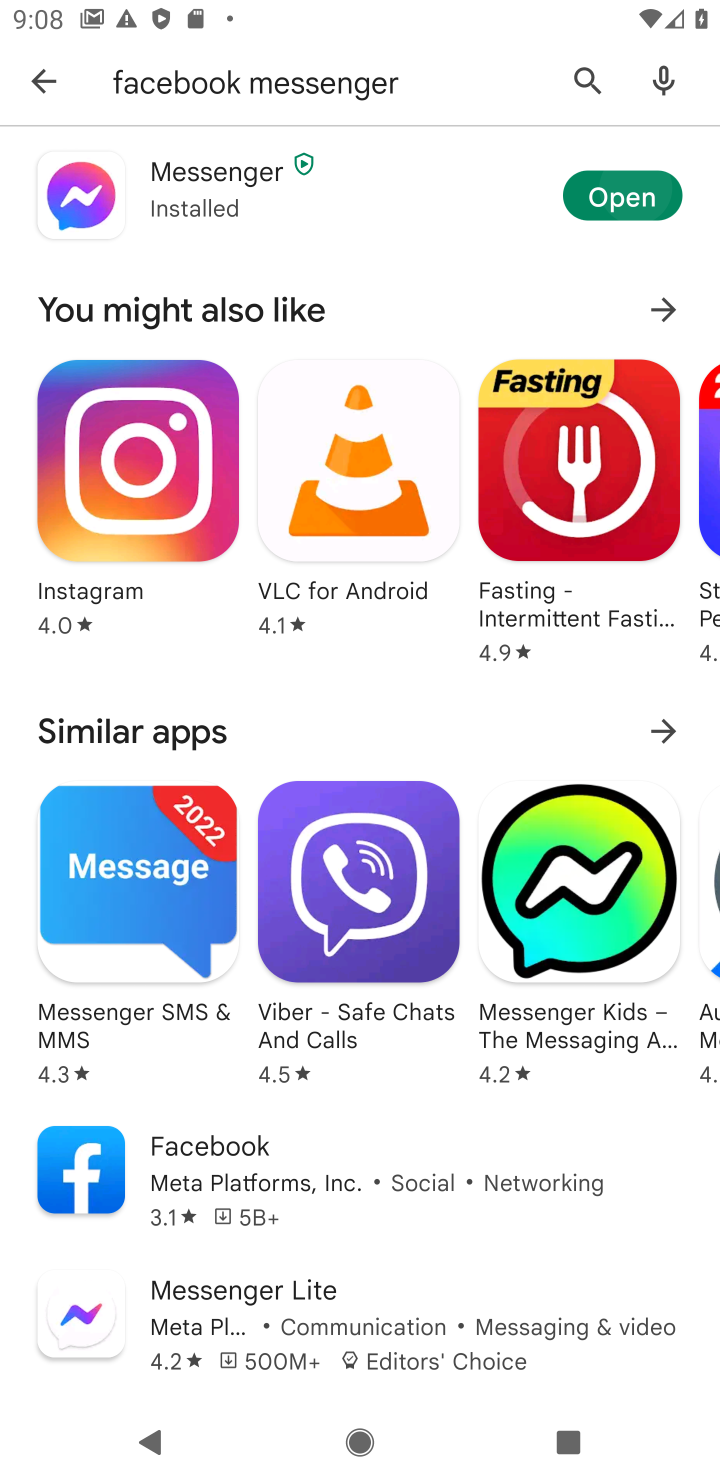
Step 32: click (638, 192)
Your task to perform on an android device: open app "Messenger Lite" Image 33: 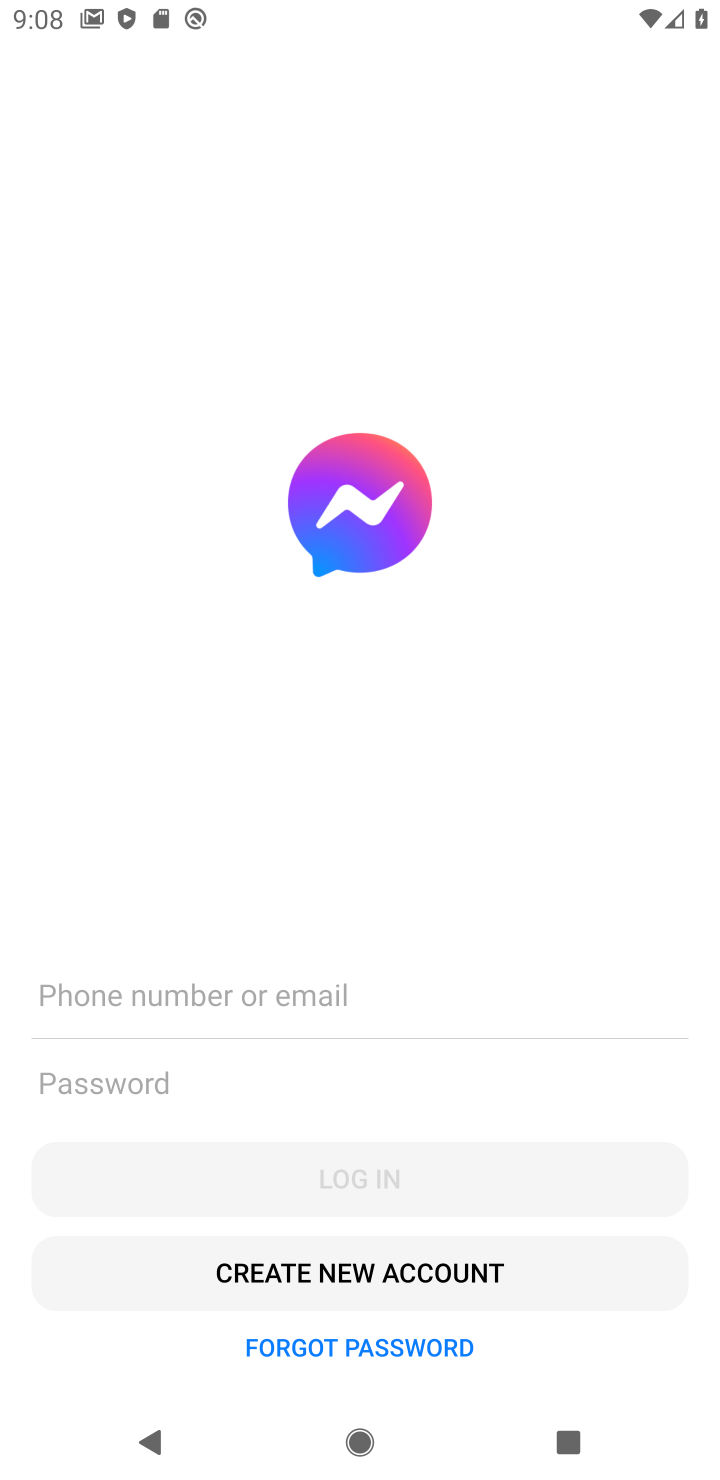
Step 33: task complete